Your task to perform on an android device: Search for dell xps on costco.com, select the first entry, and add it to the cart. Image 0: 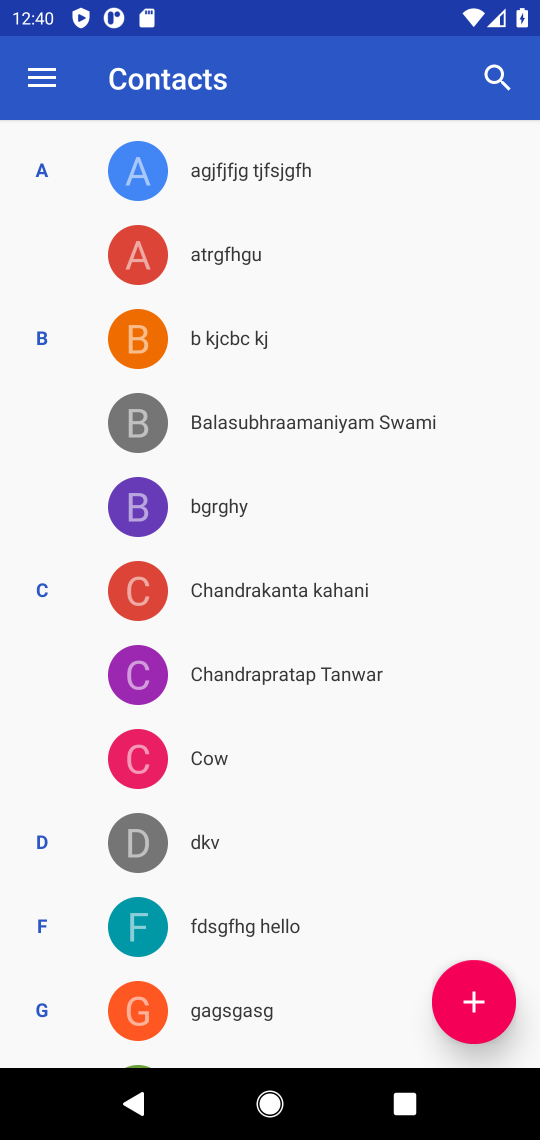
Step 0: press home button
Your task to perform on an android device: Search for dell xps on costco.com, select the first entry, and add it to the cart. Image 1: 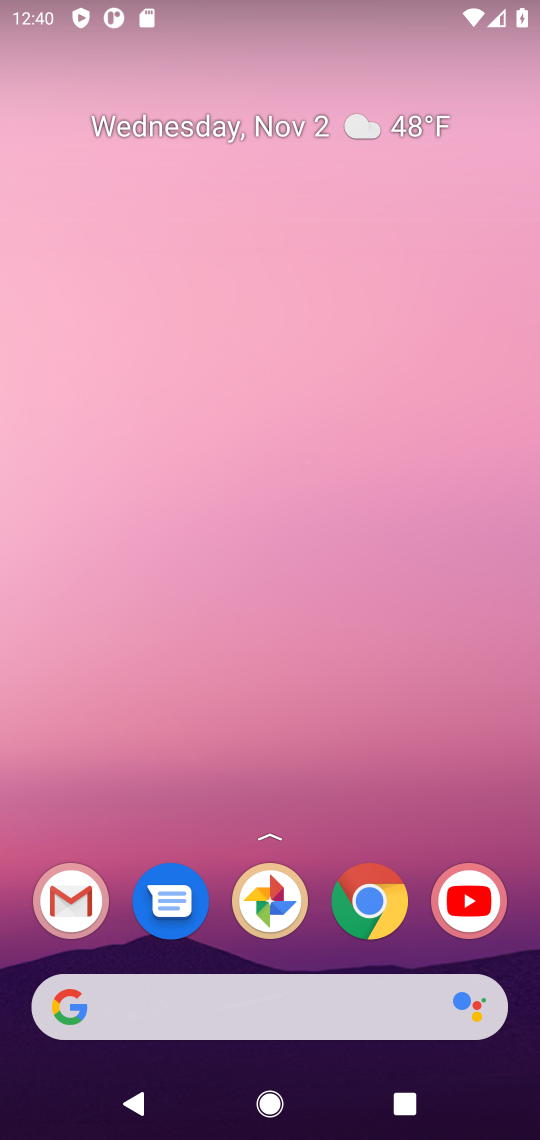
Step 1: drag from (329, 952) to (317, 88)
Your task to perform on an android device: Search for dell xps on costco.com, select the first entry, and add it to the cart. Image 2: 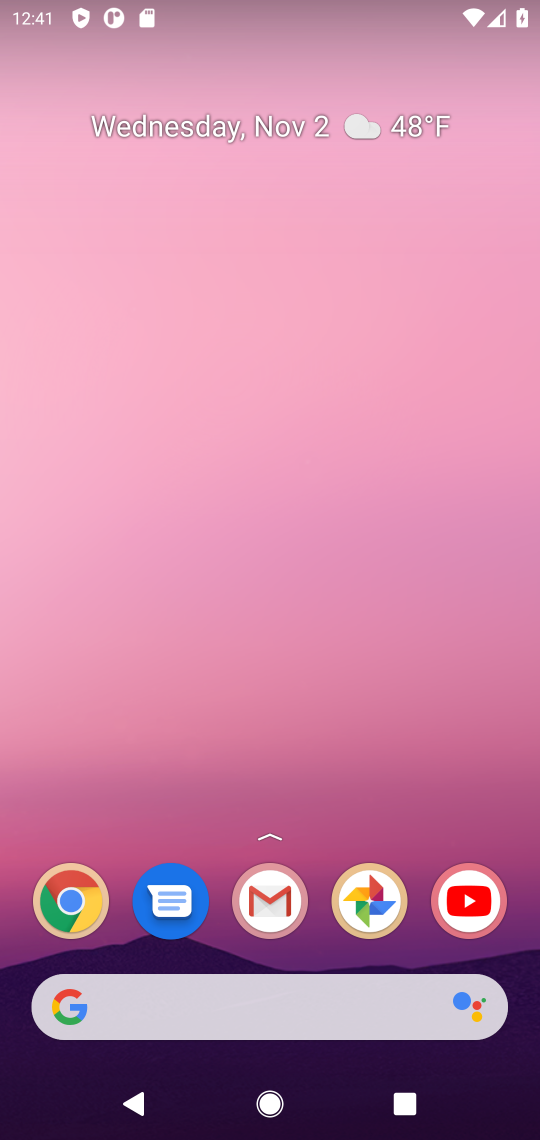
Step 2: drag from (309, 971) to (285, 330)
Your task to perform on an android device: Search for dell xps on costco.com, select the first entry, and add it to the cart. Image 3: 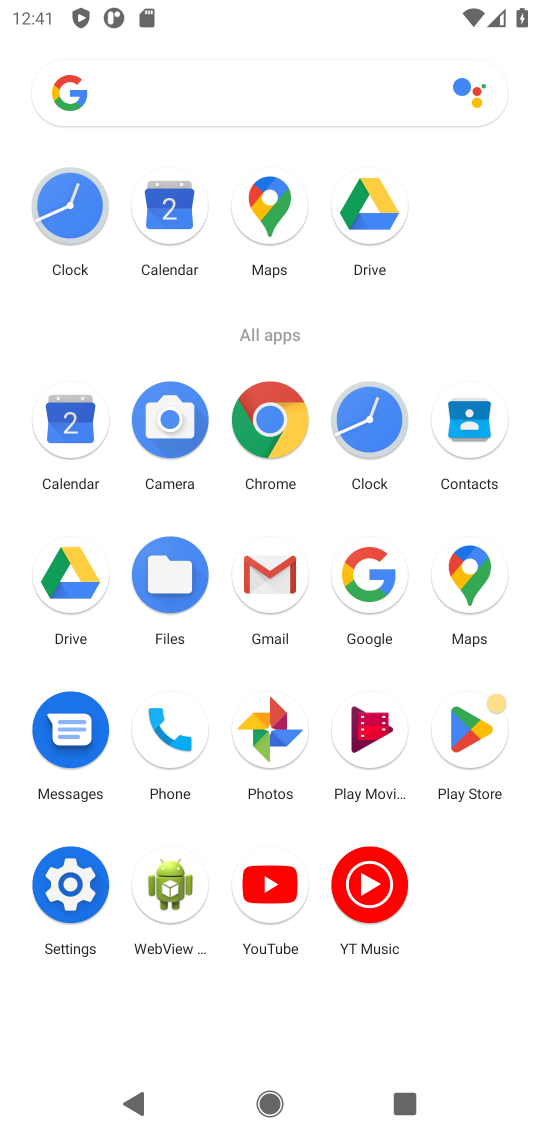
Step 3: click (276, 424)
Your task to perform on an android device: Search for dell xps on costco.com, select the first entry, and add it to the cart. Image 4: 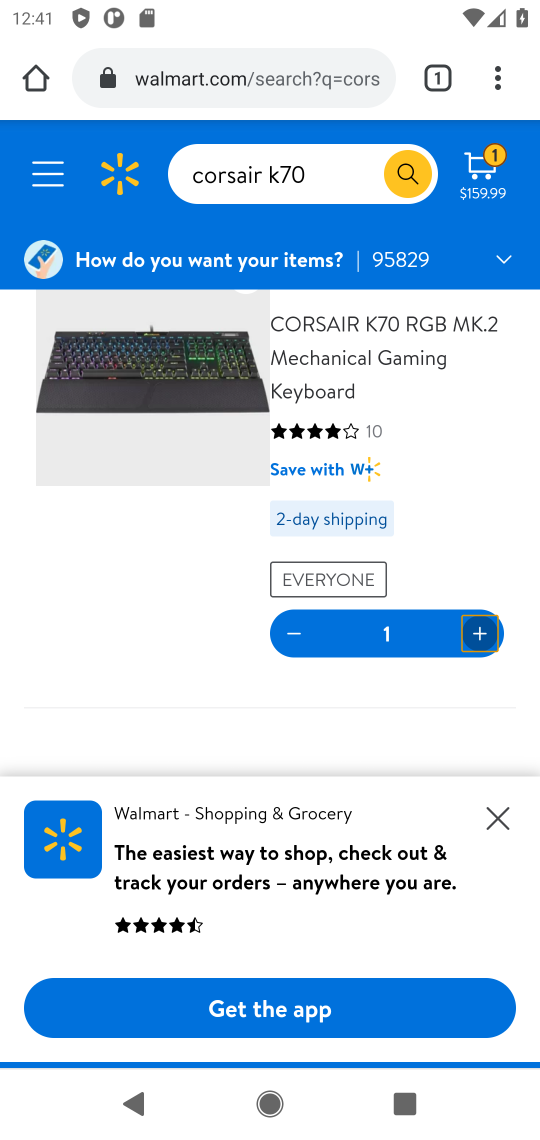
Step 4: click (303, 72)
Your task to perform on an android device: Search for dell xps on costco.com, select the first entry, and add it to the cart. Image 5: 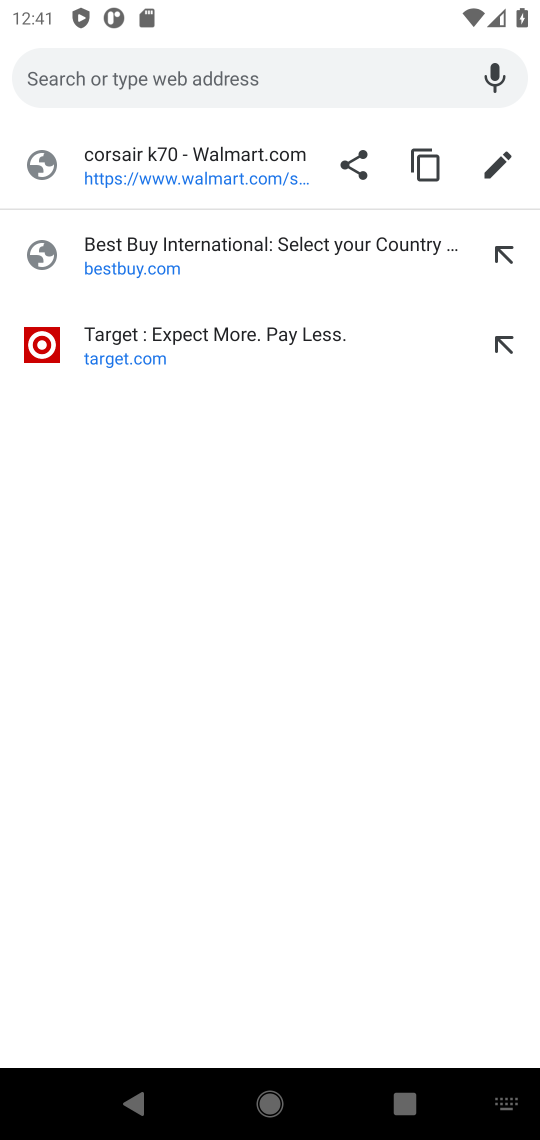
Step 5: type "costco.com"
Your task to perform on an android device: Search for dell xps on costco.com, select the first entry, and add it to the cart. Image 6: 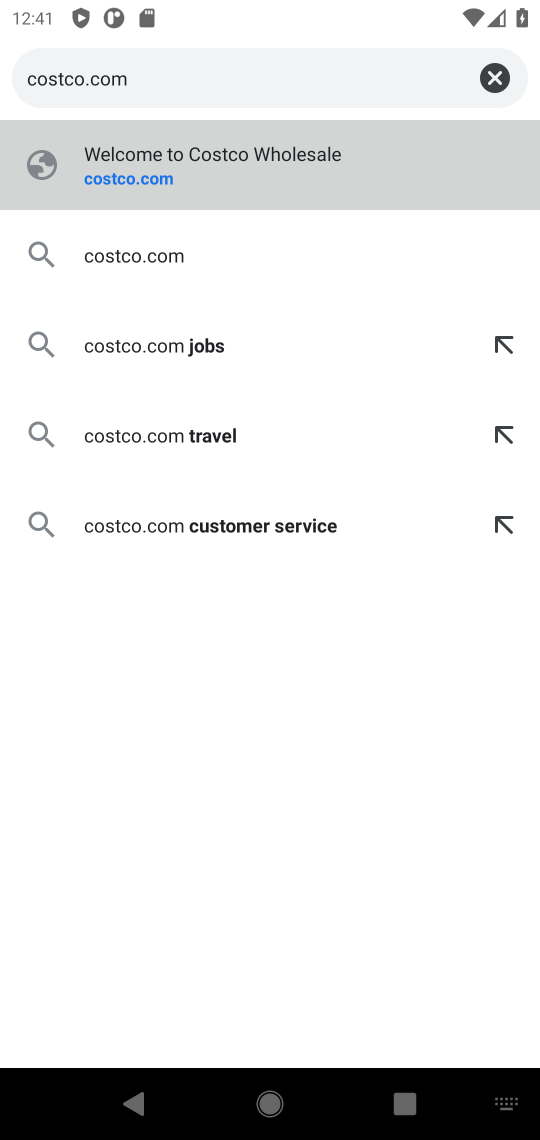
Step 6: press enter
Your task to perform on an android device: Search for dell xps on costco.com, select the first entry, and add it to the cart. Image 7: 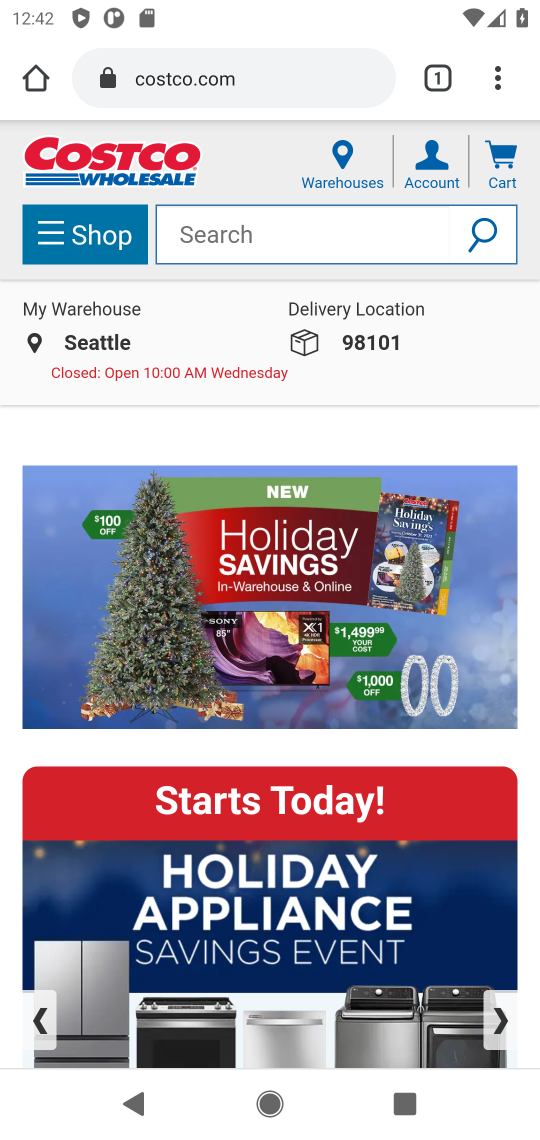
Step 7: click (309, 238)
Your task to perform on an android device: Search for dell xps on costco.com, select the first entry, and add it to the cart. Image 8: 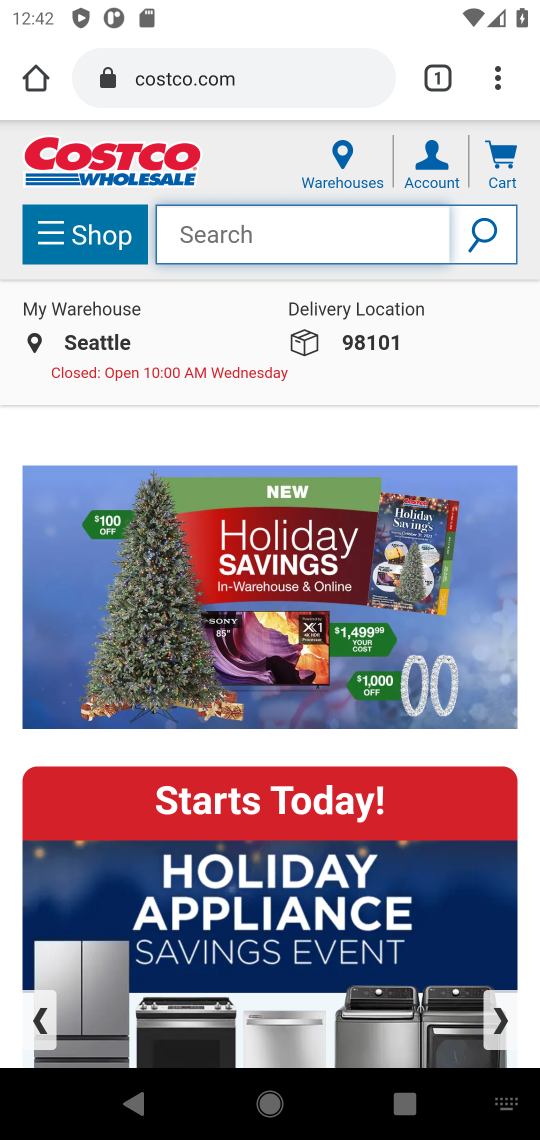
Step 8: type "dell xps"
Your task to perform on an android device: Search for dell xps on costco.com, select the first entry, and add it to the cart. Image 9: 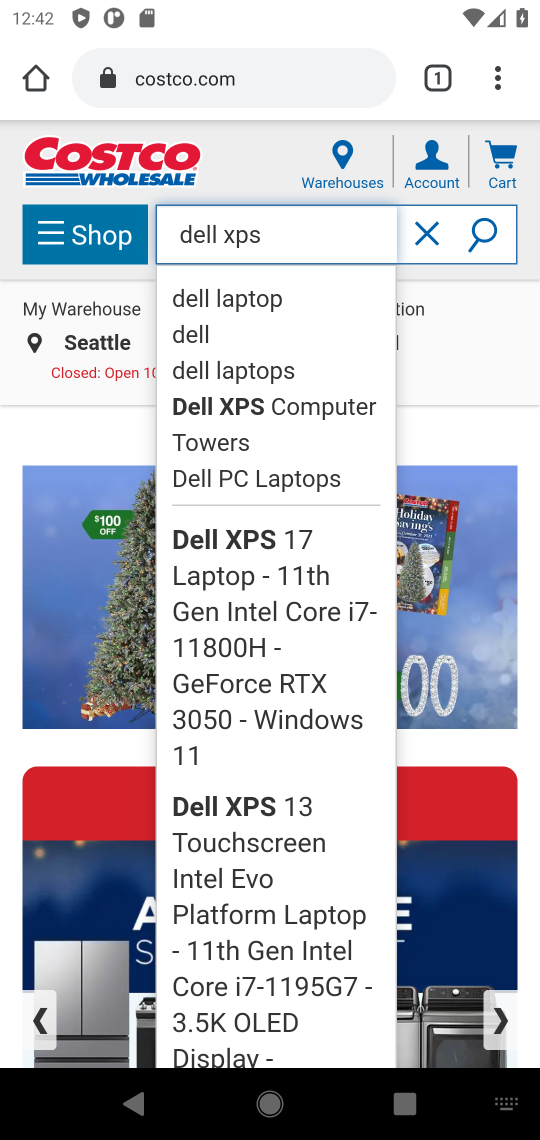
Step 9: press enter
Your task to perform on an android device: Search for dell xps on costco.com, select the first entry, and add it to the cart. Image 10: 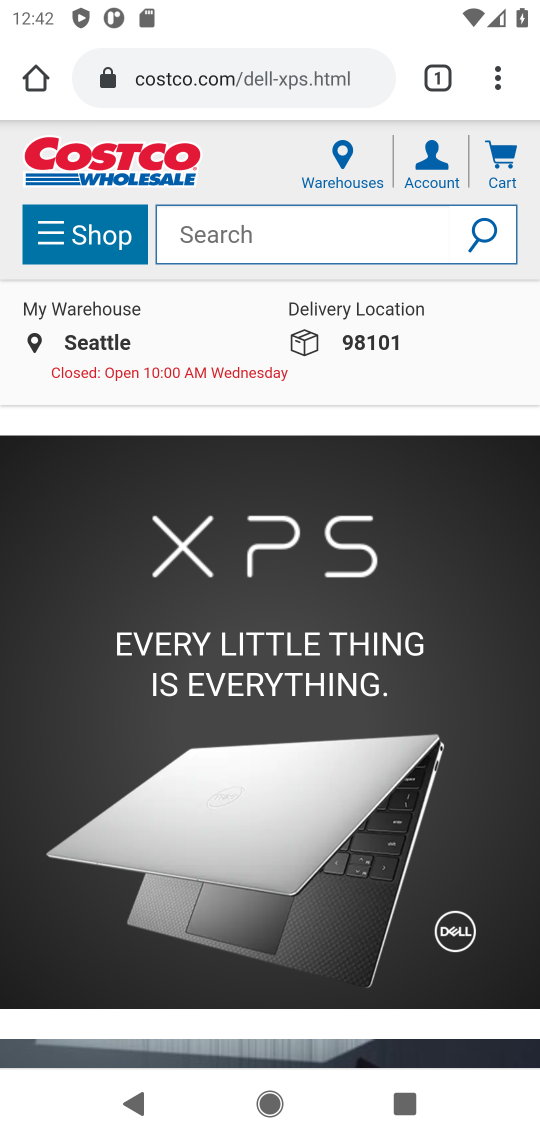
Step 10: drag from (437, 846) to (329, 246)
Your task to perform on an android device: Search for dell xps on costco.com, select the first entry, and add it to the cart. Image 11: 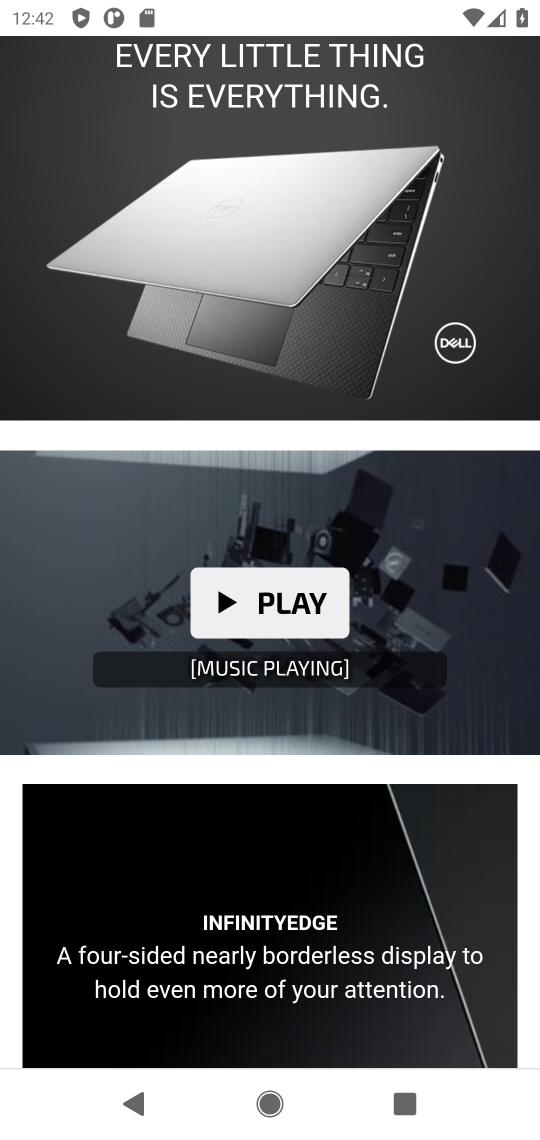
Step 11: drag from (404, 854) to (345, 379)
Your task to perform on an android device: Search for dell xps on costco.com, select the first entry, and add it to the cart. Image 12: 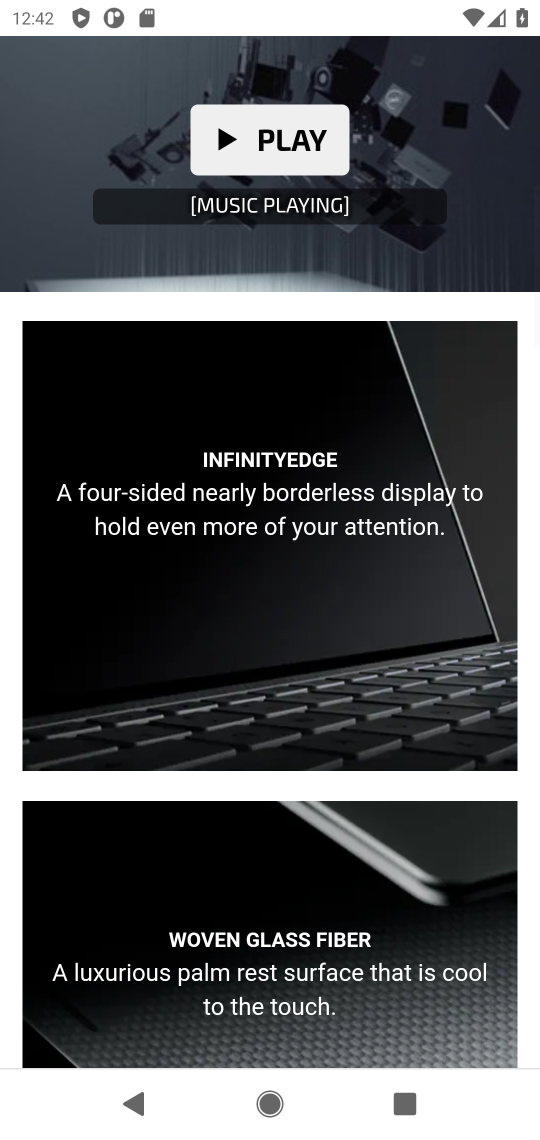
Step 12: drag from (374, 906) to (366, 418)
Your task to perform on an android device: Search for dell xps on costco.com, select the first entry, and add it to the cart. Image 13: 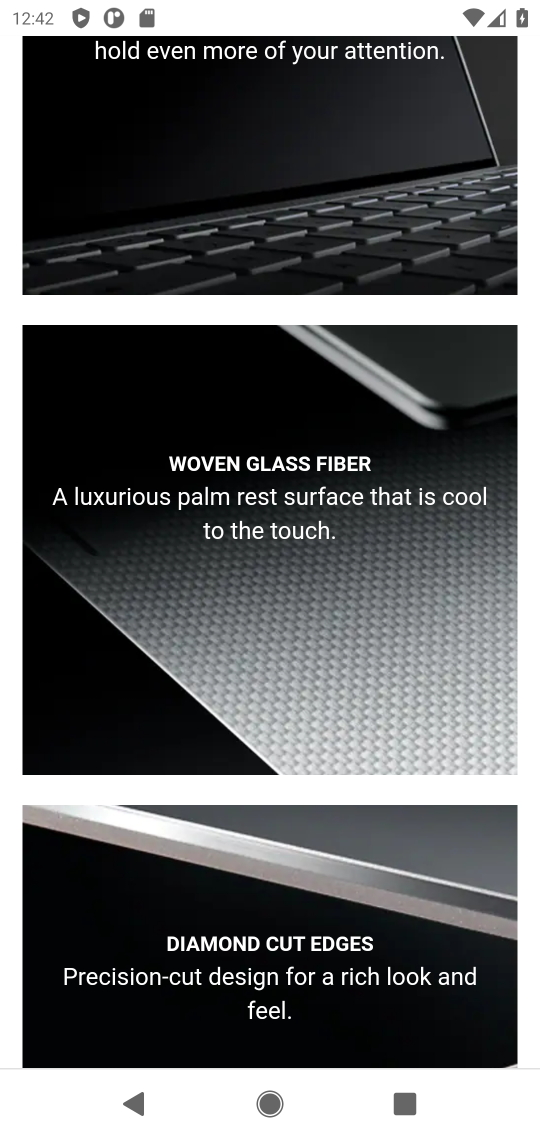
Step 13: drag from (392, 944) to (354, 500)
Your task to perform on an android device: Search for dell xps on costco.com, select the first entry, and add it to the cart. Image 14: 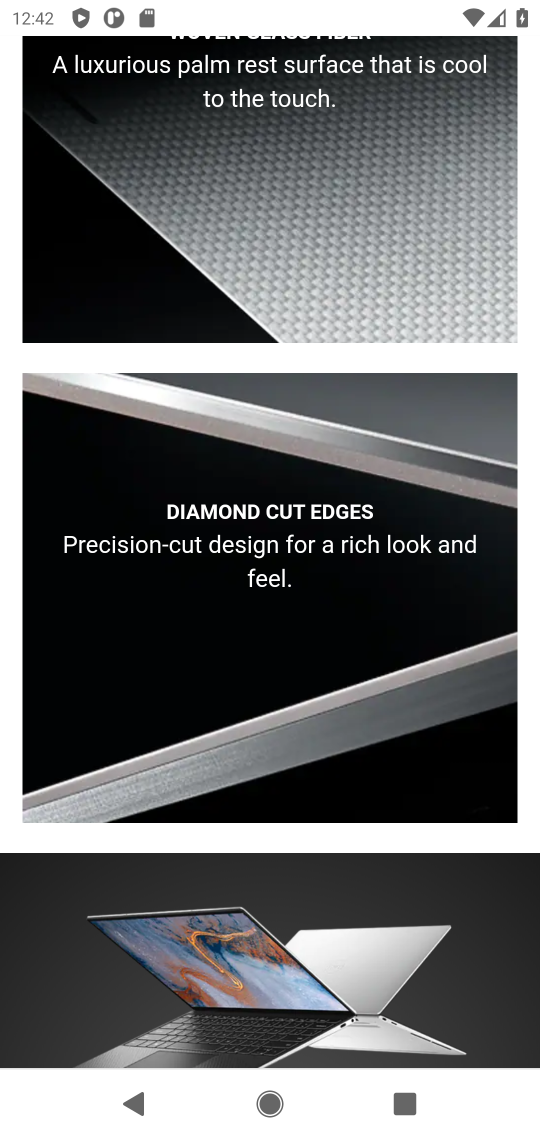
Step 14: drag from (373, 923) to (356, 591)
Your task to perform on an android device: Search for dell xps on costco.com, select the first entry, and add it to the cart. Image 15: 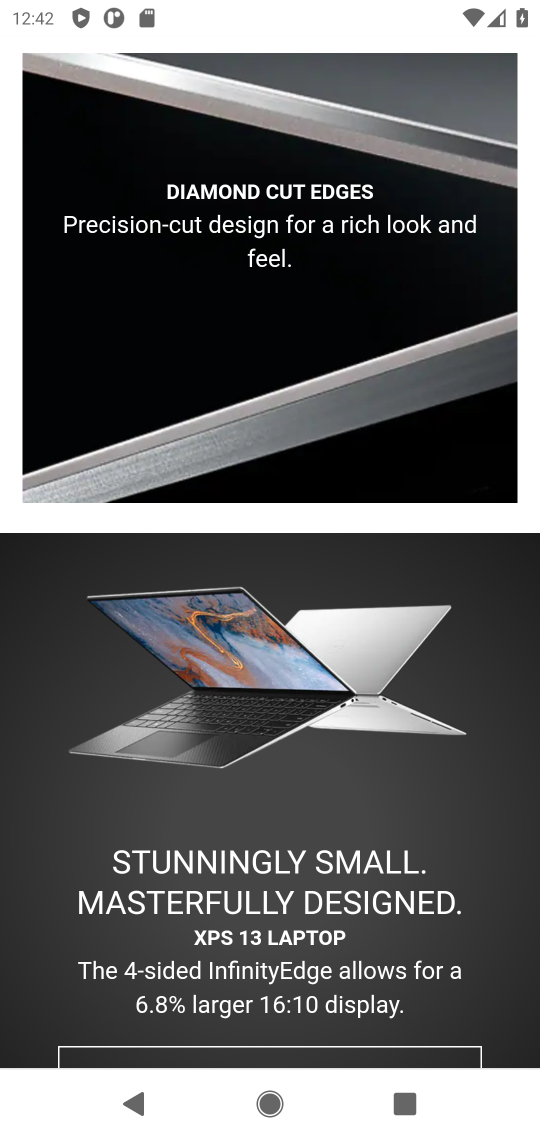
Step 15: drag from (388, 876) to (253, 308)
Your task to perform on an android device: Search for dell xps on costco.com, select the first entry, and add it to the cart. Image 16: 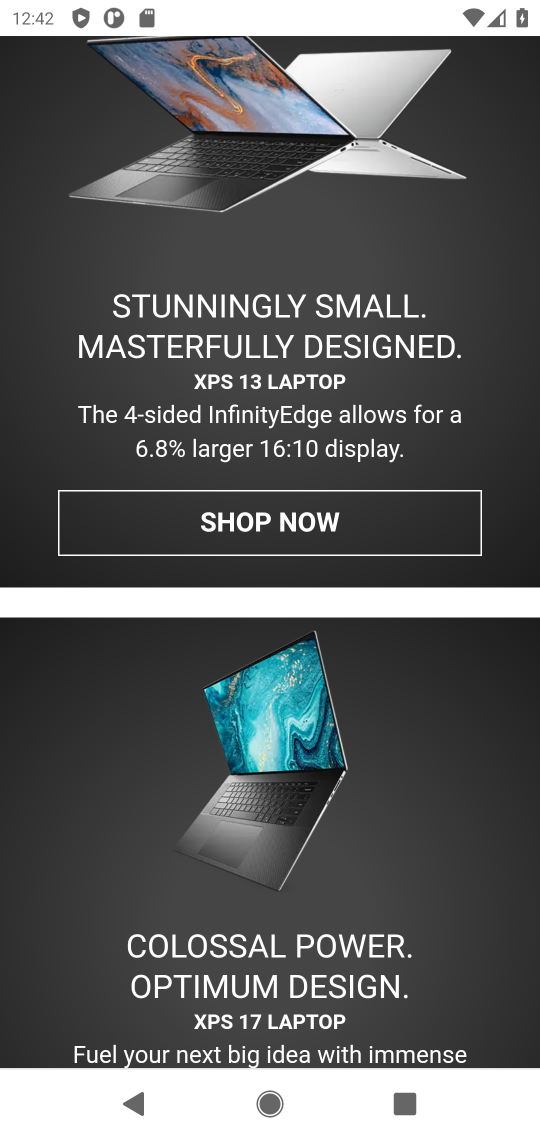
Step 16: drag from (327, 733) to (294, 239)
Your task to perform on an android device: Search for dell xps on costco.com, select the first entry, and add it to the cart. Image 17: 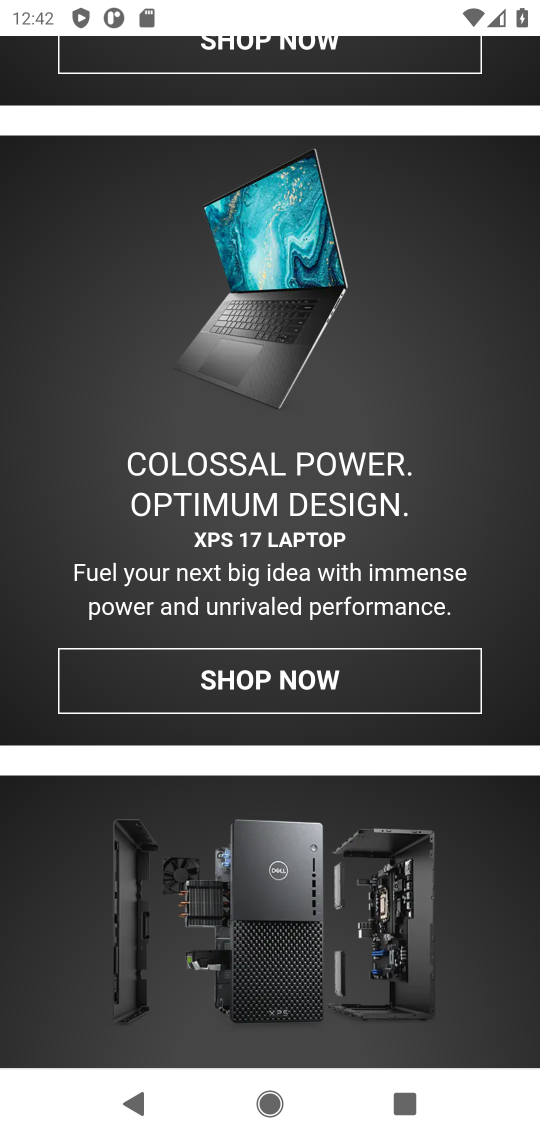
Step 17: drag from (294, 238) to (358, 1023)
Your task to perform on an android device: Search for dell xps on costco.com, select the first entry, and add it to the cart. Image 18: 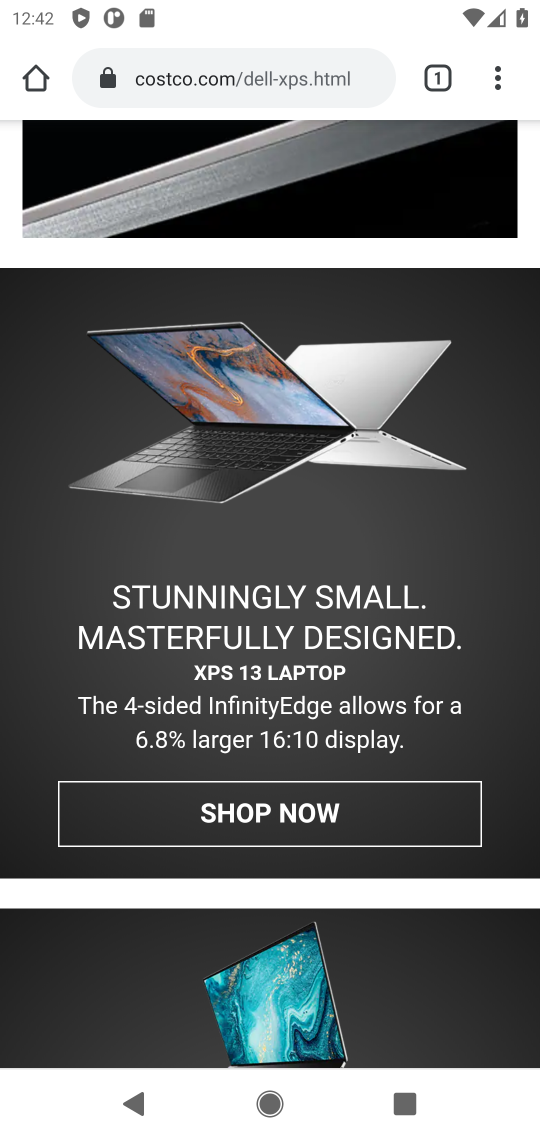
Step 18: drag from (331, 299) to (346, 986)
Your task to perform on an android device: Search for dell xps on costco.com, select the first entry, and add it to the cart. Image 19: 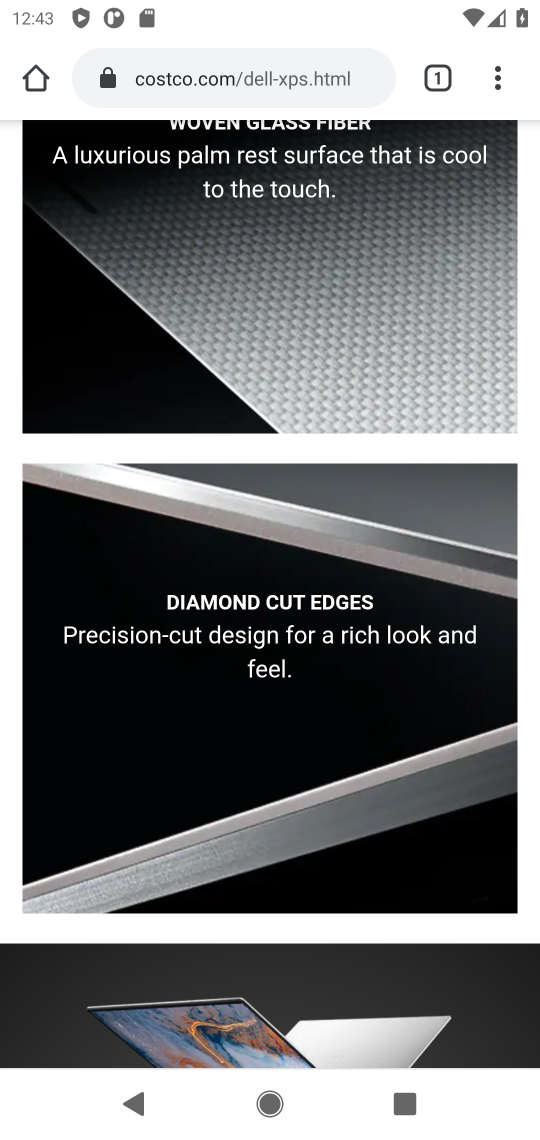
Step 19: drag from (328, 205) to (278, 796)
Your task to perform on an android device: Search for dell xps on costco.com, select the first entry, and add it to the cart. Image 20: 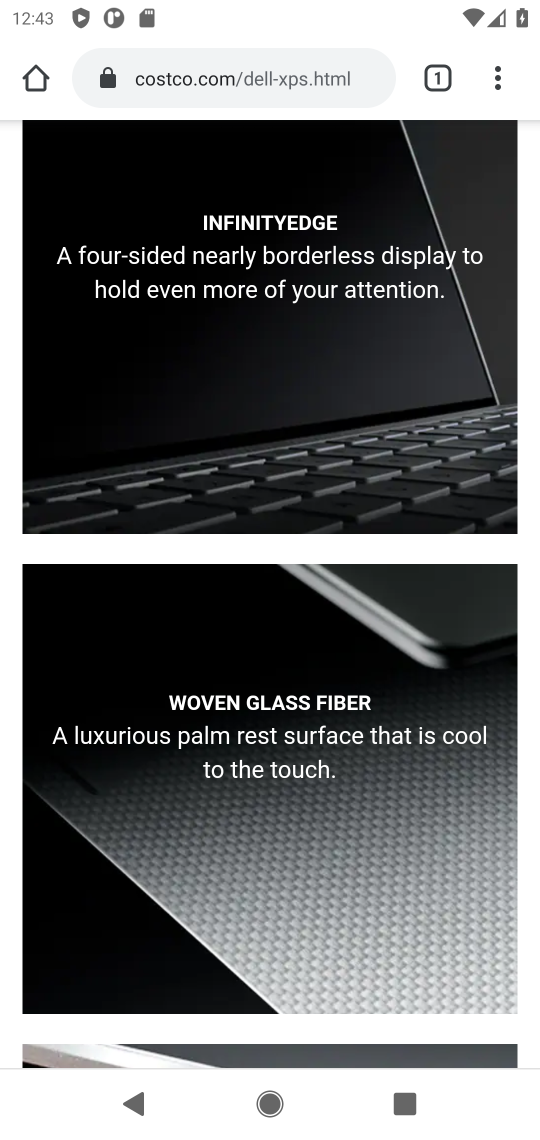
Step 20: drag from (301, 200) to (300, 955)
Your task to perform on an android device: Search for dell xps on costco.com, select the first entry, and add it to the cart. Image 21: 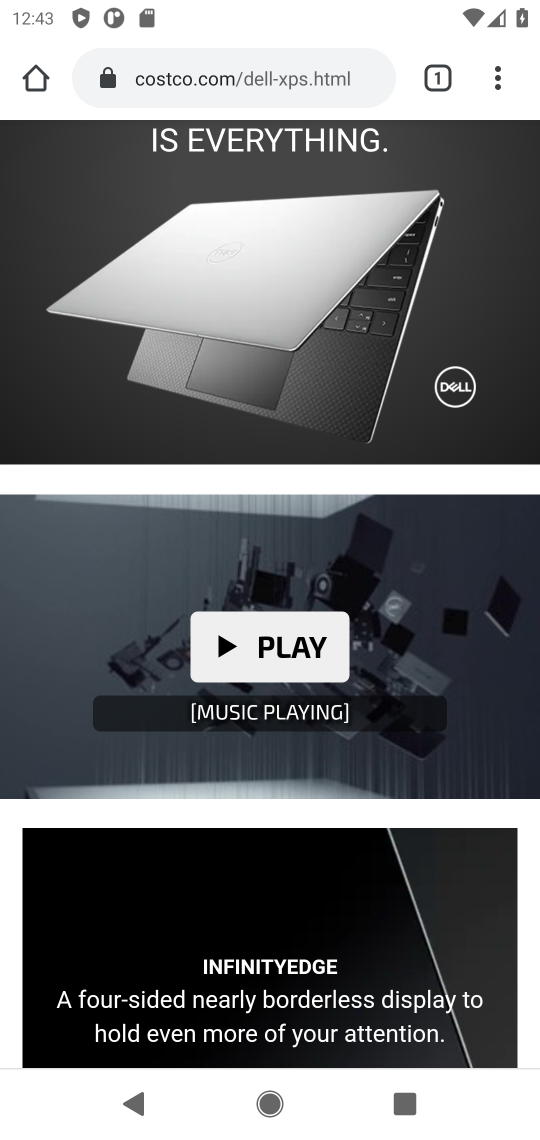
Step 21: drag from (321, 314) to (260, 967)
Your task to perform on an android device: Search for dell xps on costco.com, select the first entry, and add it to the cart. Image 22: 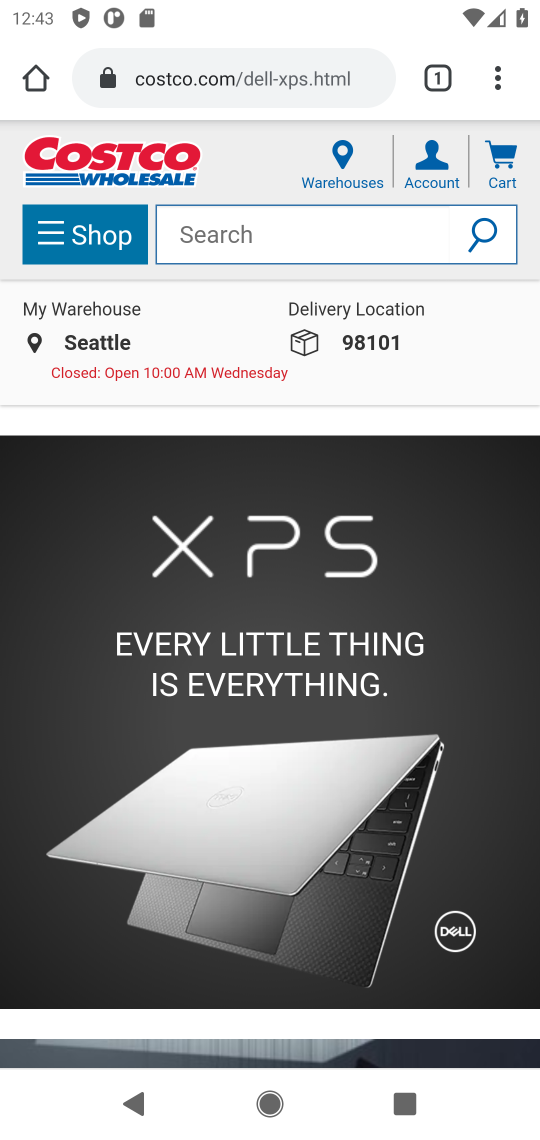
Step 22: click (339, 225)
Your task to perform on an android device: Search for dell xps on costco.com, select the first entry, and add it to the cart. Image 23: 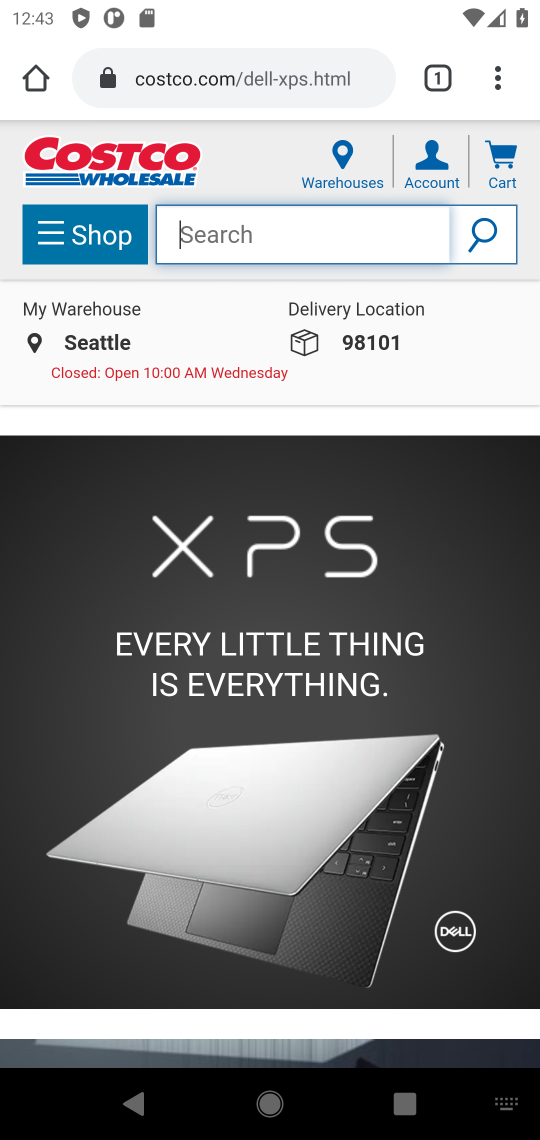
Step 23: type "dell xps"
Your task to perform on an android device: Search for dell xps on costco.com, select the first entry, and add it to the cart. Image 24: 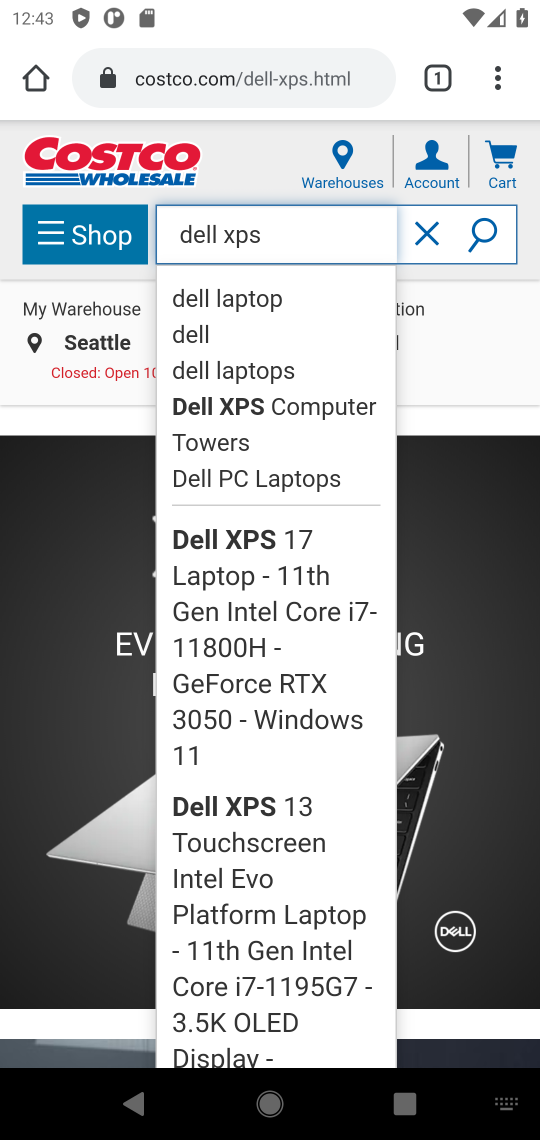
Step 24: press enter
Your task to perform on an android device: Search for dell xps on costco.com, select the first entry, and add it to the cart. Image 25: 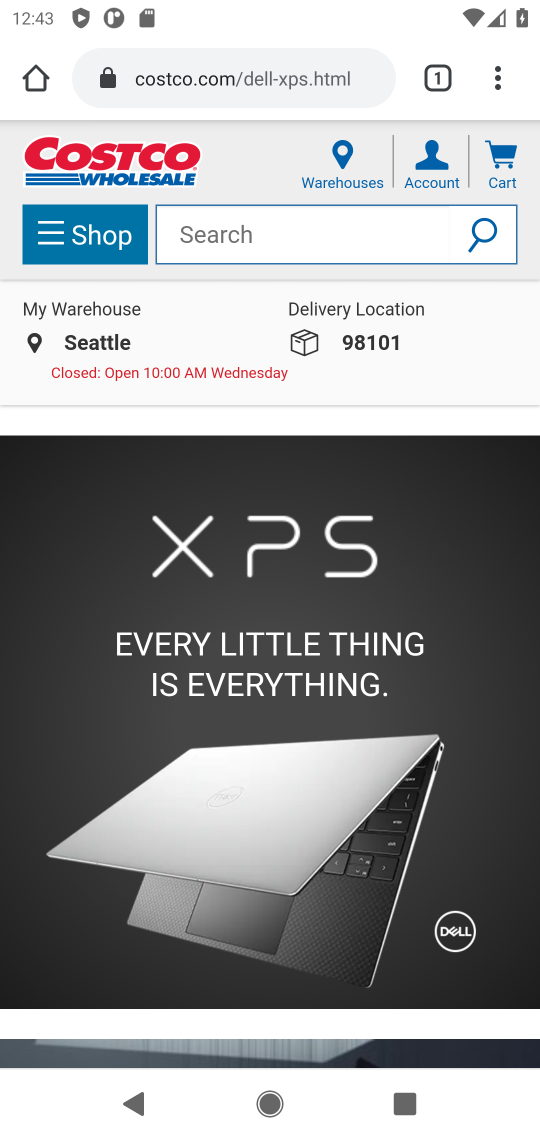
Step 25: drag from (346, 832) to (324, 477)
Your task to perform on an android device: Search for dell xps on costco.com, select the first entry, and add it to the cart. Image 26: 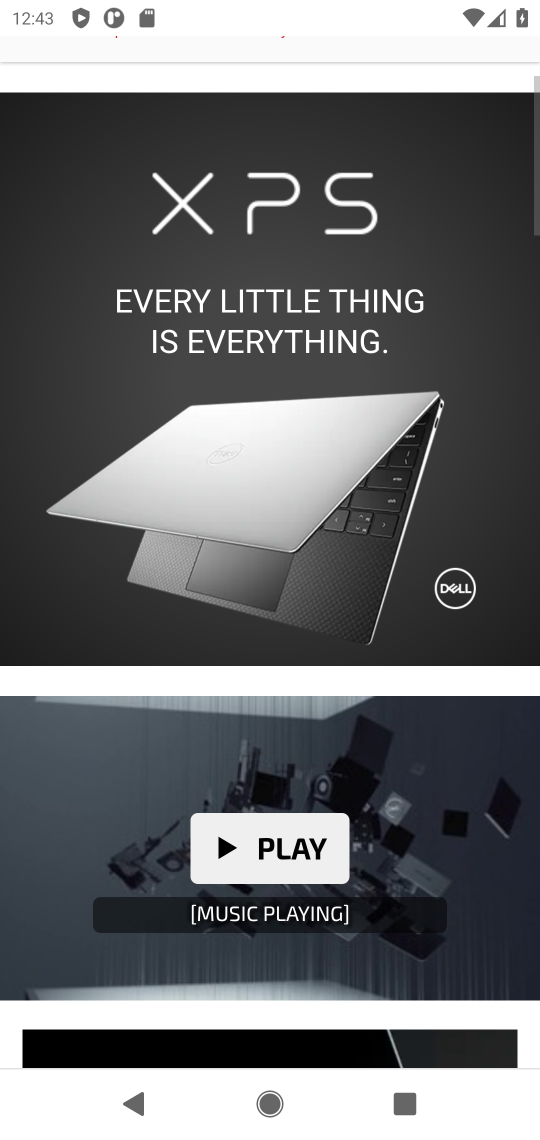
Step 26: drag from (329, 887) to (326, 383)
Your task to perform on an android device: Search for dell xps on costco.com, select the first entry, and add it to the cart. Image 27: 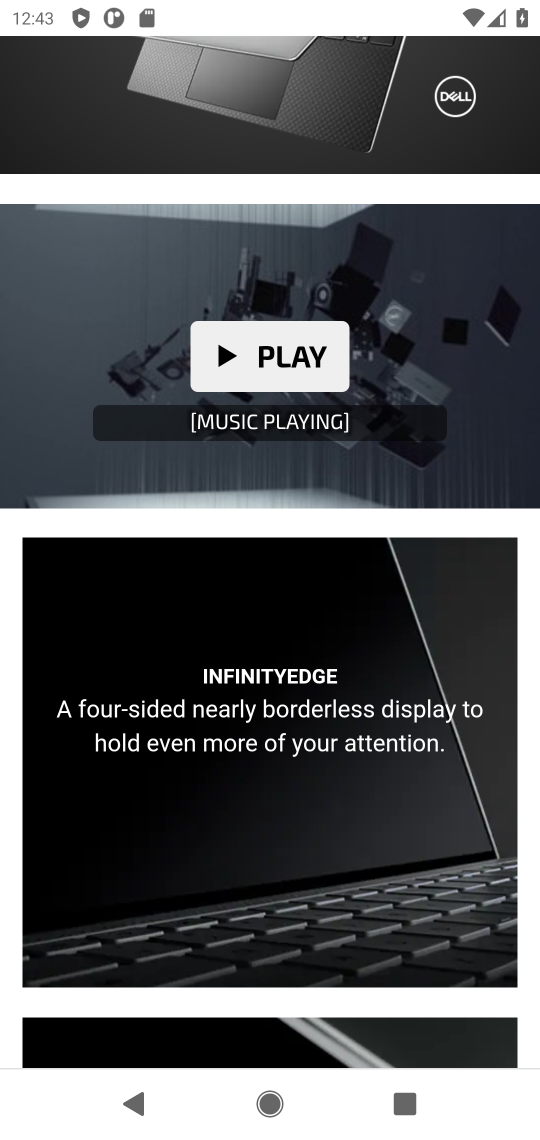
Step 27: drag from (376, 814) to (355, 425)
Your task to perform on an android device: Search for dell xps on costco.com, select the first entry, and add it to the cart. Image 28: 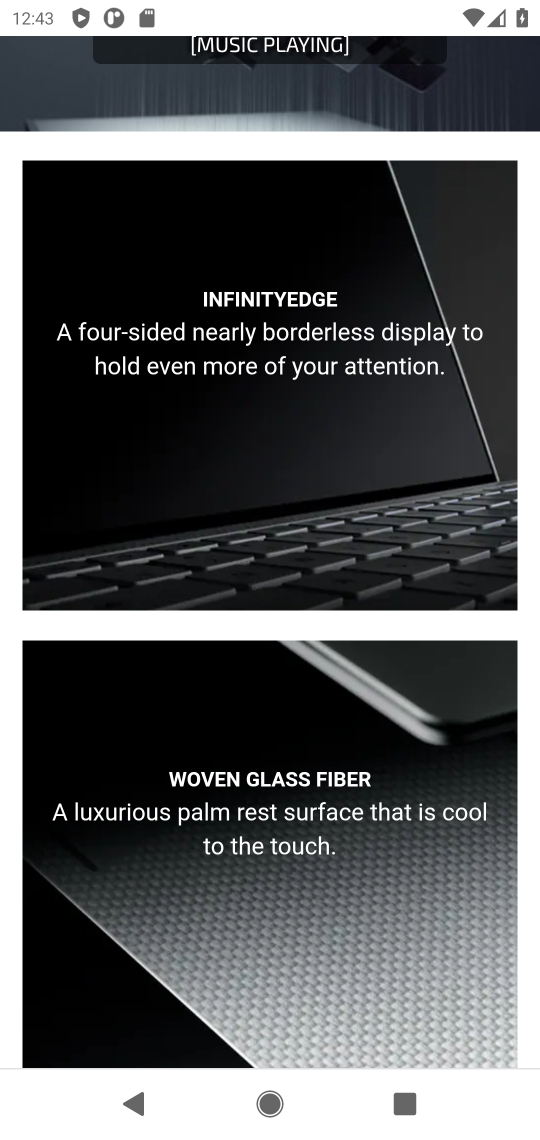
Step 28: drag from (308, 838) to (317, 452)
Your task to perform on an android device: Search for dell xps on costco.com, select the first entry, and add it to the cart. Image 29: 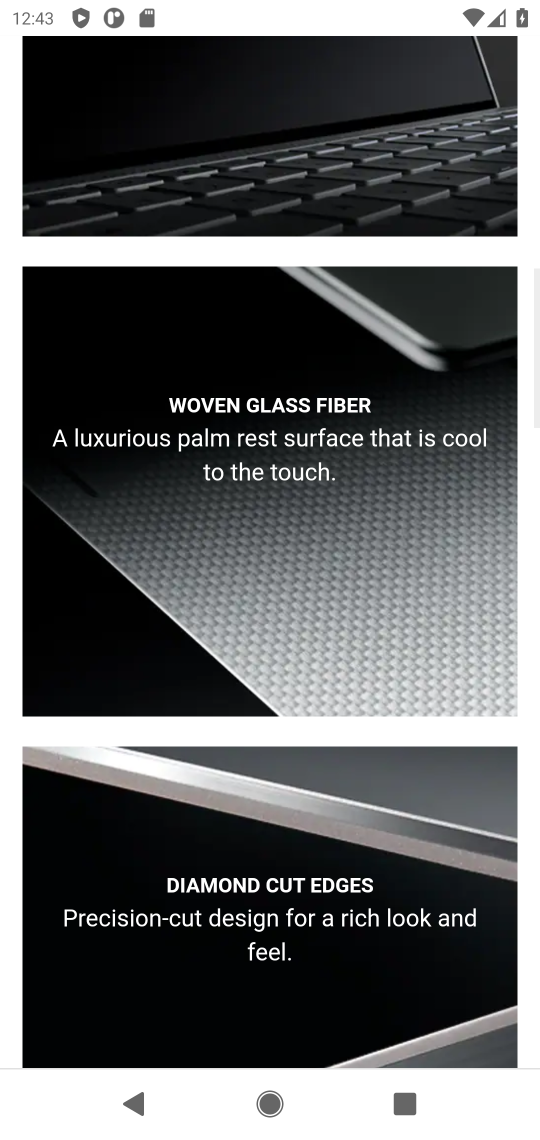
Step 29: drag from (289, 906) to (308, 523)
Your task to perform on an android device: Search for dell xps on costco.com, select the first entry, and add it to the cart. Image 30: 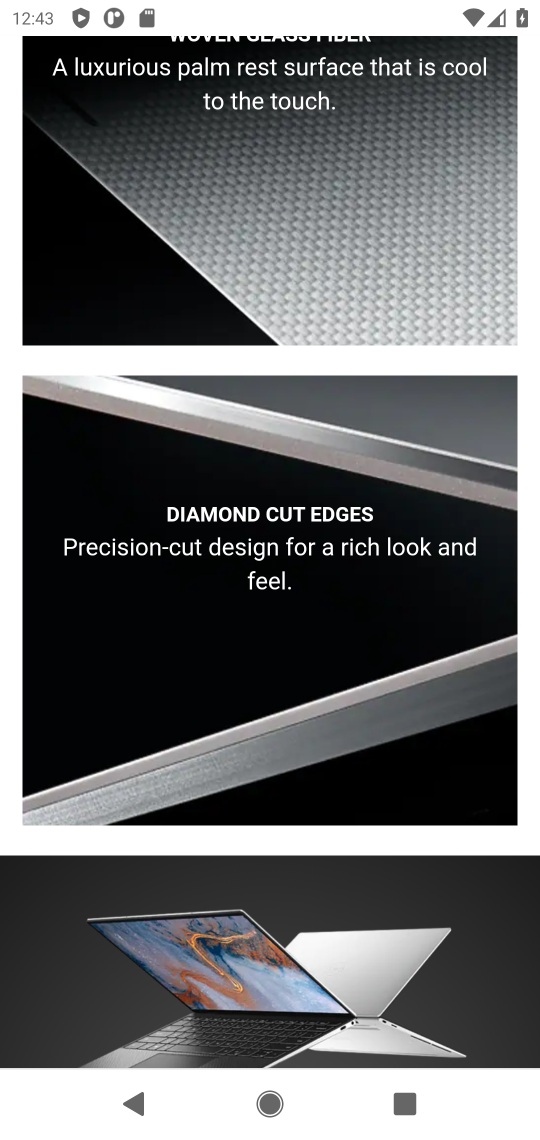
Step 30: drag from (278, 753) to (298, 459)
Your task to perform on an android device: Search for dell xps on costco.com, select the first entry, and add it to the cart. Image 31: 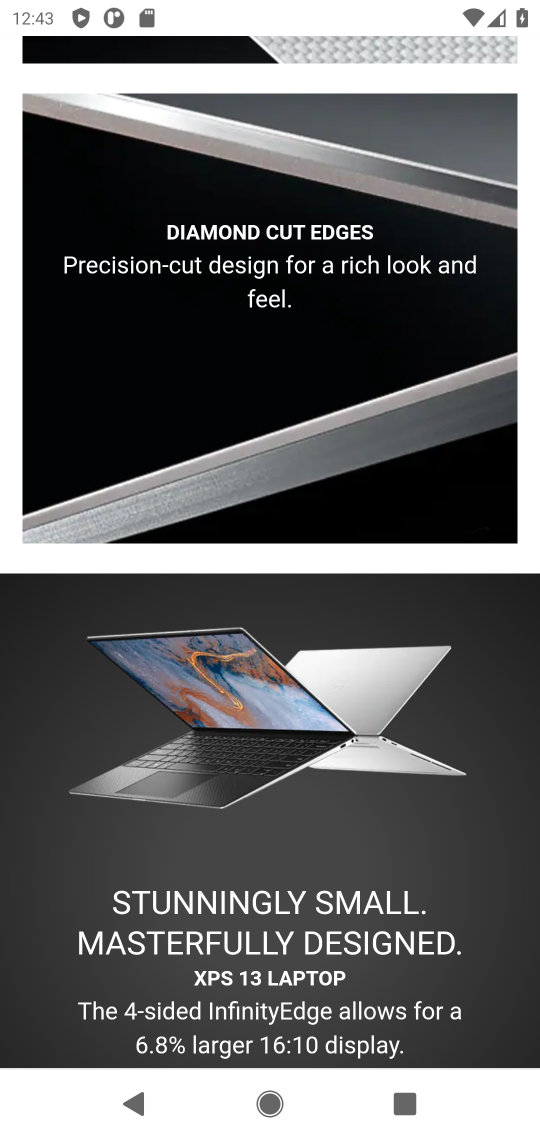
Step 31: drag from (377, 871) to (328, 205)
Your task to perform on an android device: Search for dell xps on costco.com, select the first entry, and add it to the cart. Image 32: 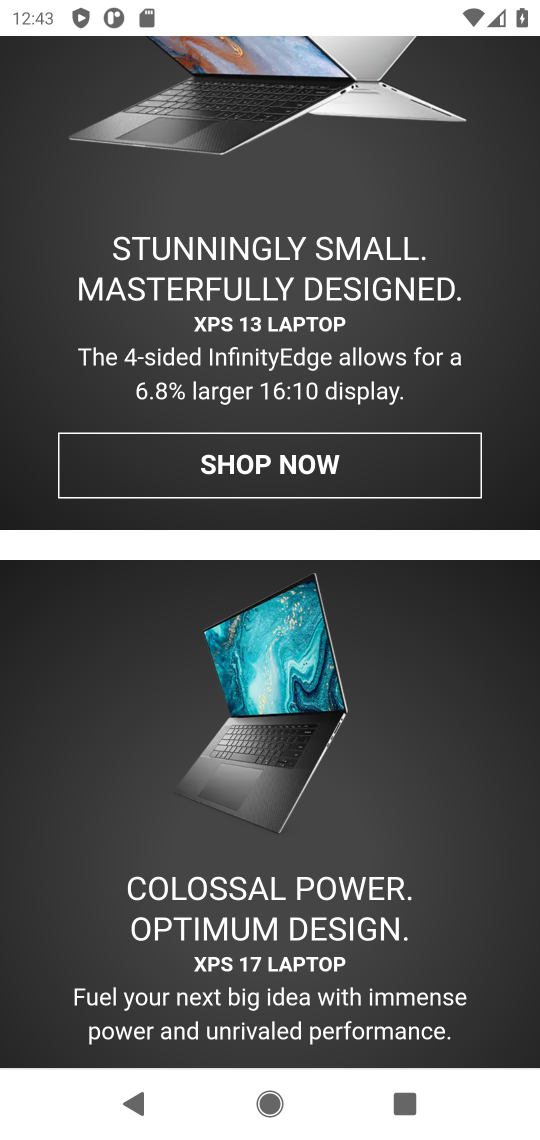
Step 32: drag from (327, 697) to (329, 167)
Your task to perform on an android device: Search for dell xps on costco.com, select the first entry, and add it to the cart. Image 33: 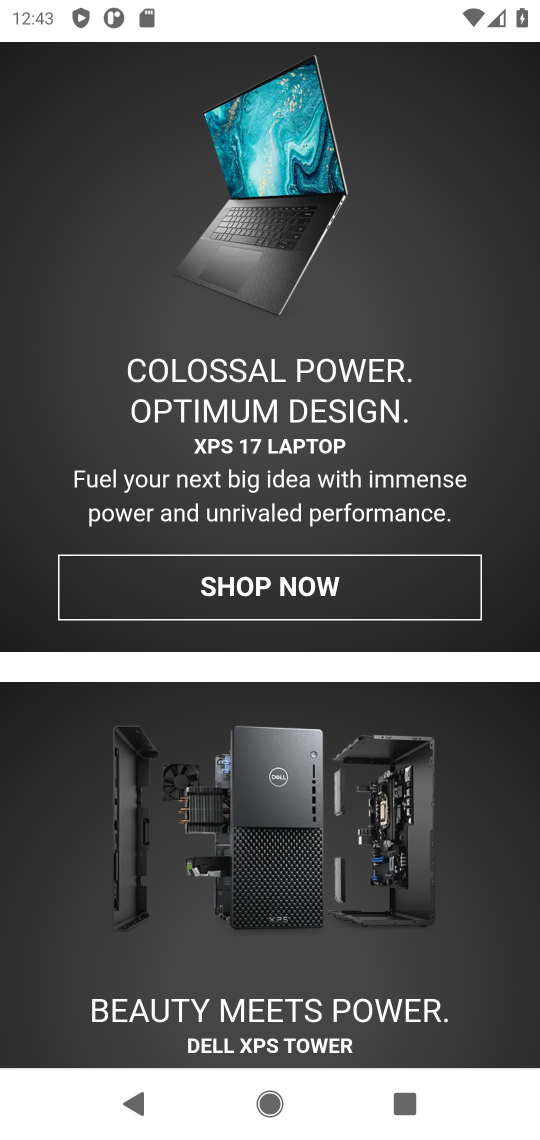
Step 33: drag from (330, 631) to (287, 187)
Your task to perform on an android device: Search for dell xps on costco.com, select the first entry, and add it to the cart. Image 34: 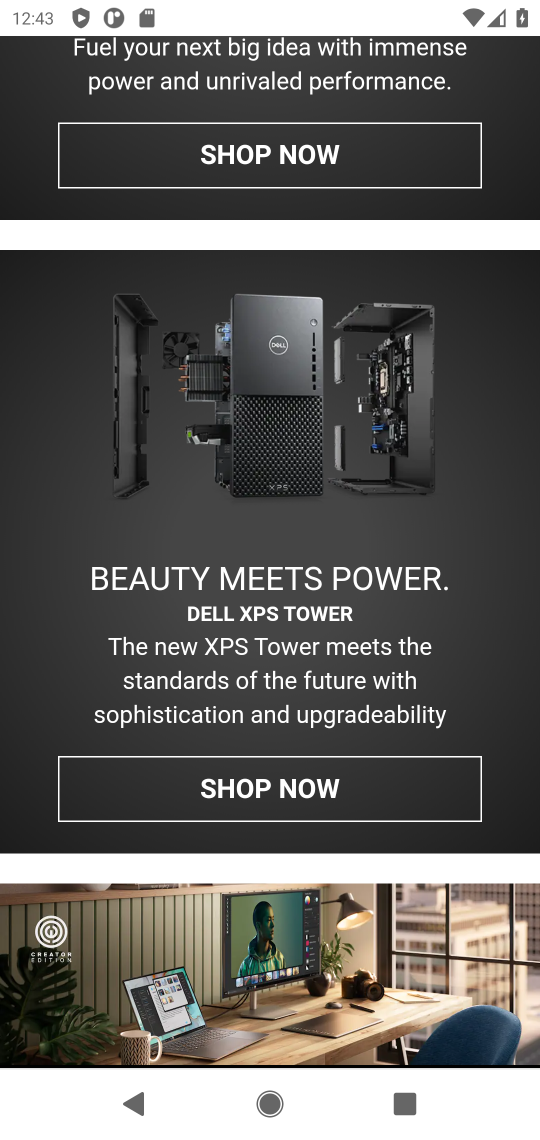
Step 34: drag from (327, 592) to (313, 317)
Your task to perform on an android device: Search for dell xps on costco.com, select the first entry, and add it to the cart. Image 35: 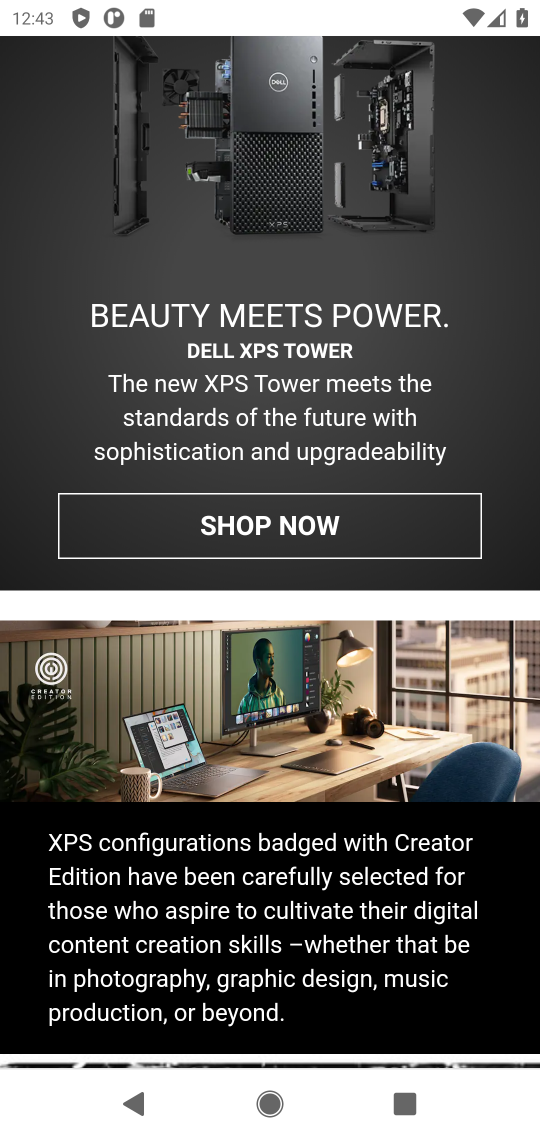
Step 35: drag from (348, 683) to (334, 360)
Your task to perform on an android device: Search for dell xps on costco.com, select the first entry, and add it to the cart. Image 36: 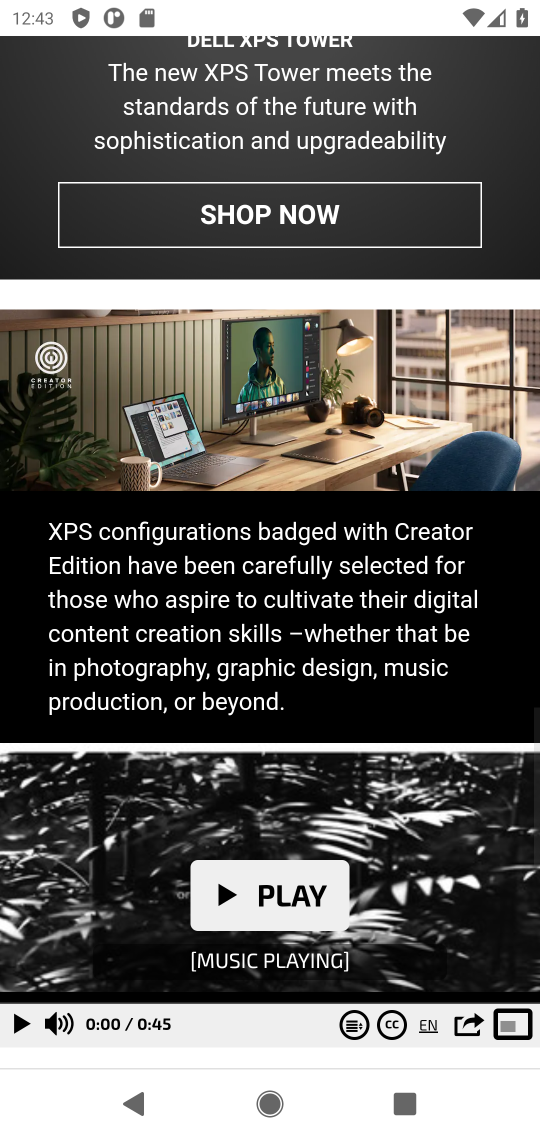
Step 36: drag from (363, 870) to (306, 450)
Your task to perform on an android device: Search for dell xps on costco.com, select the first entry, and add it to the cart. Image 37: 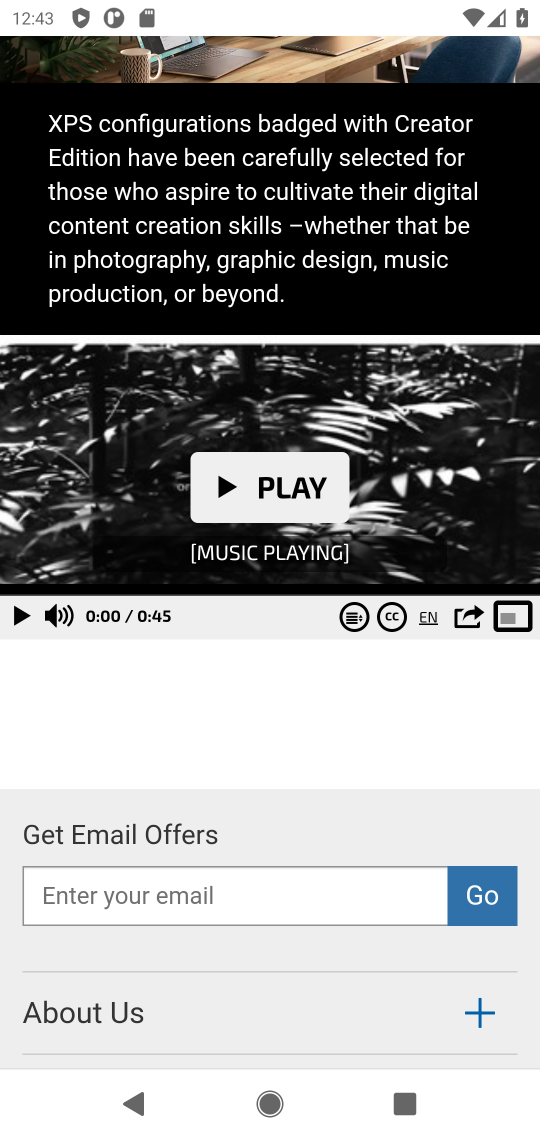
Step 37: drag from (411, 768) to (347, 1091)
Your task to perform on an android device: Search for dell xps on costco.com, select the first entry, and add it to the cart. Image 38: 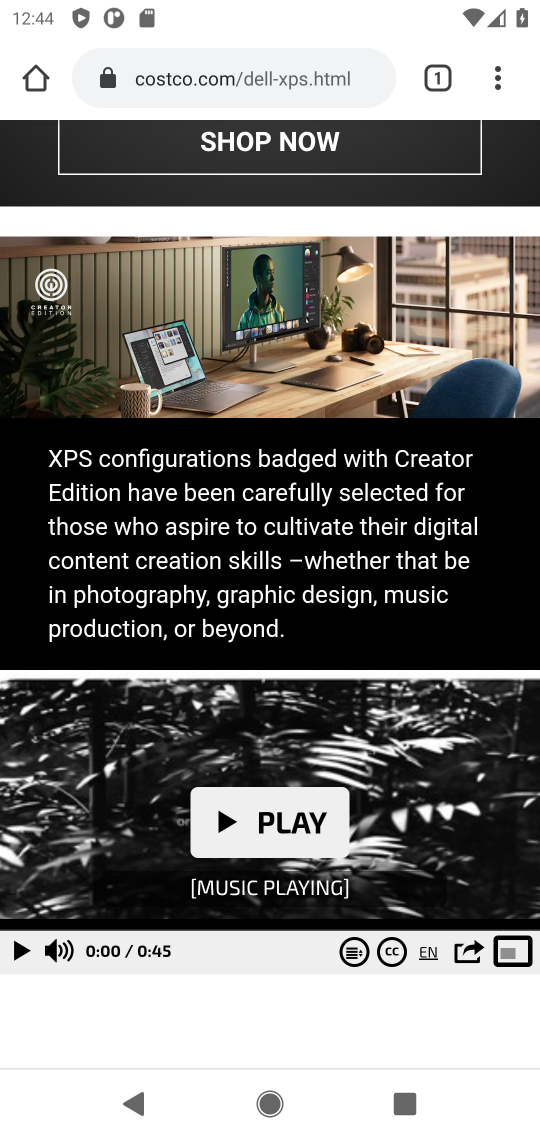
Step 38: drag from (352, 382) to (293, 885)
Your task to perform on an android device: Search for dell xps on costco.com, select the first entry, and add it to the cart. Image 39: 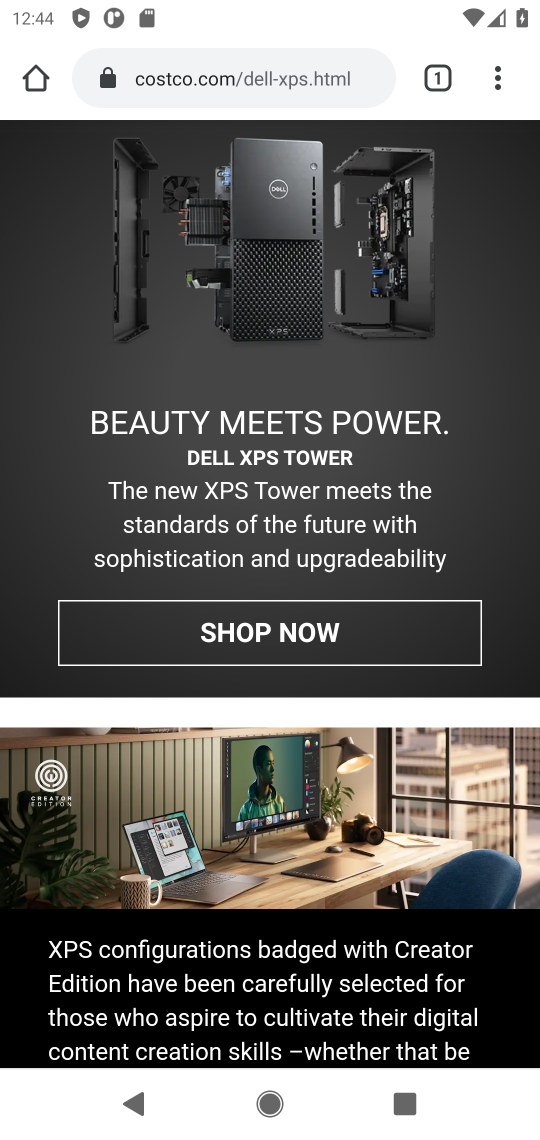
Step 39: click (283, 641)
Your task to perform on an android device: Search for dell xps on costco.com, select the first entry, and add it to the cart. Image 40: 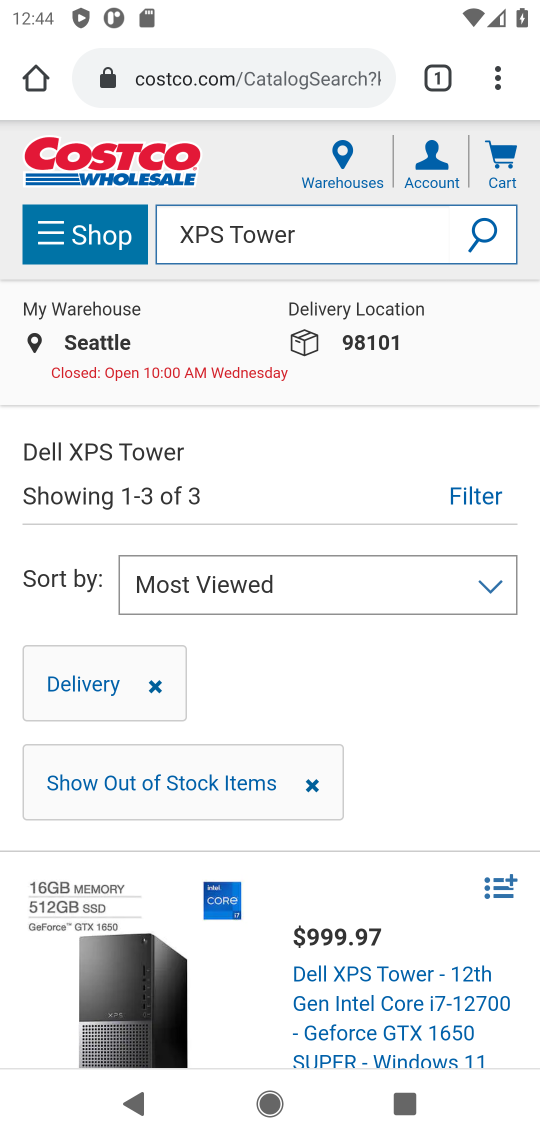
Step 40: press back button
Your task to perform on an android device: Search for dell xps on costco.com, select the first entry, and add it to the cart. Image 41: 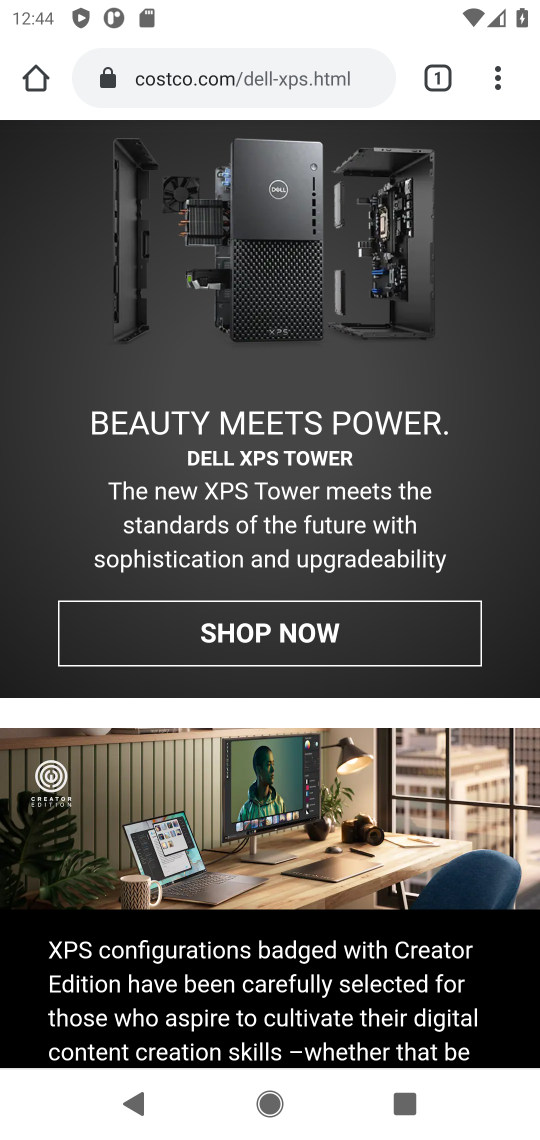
Step 41: drag from (348, 296) to (460, 980)
Your task to perform on an android device: Search for dell xps on costco.com, select the first entry, and add it to the cart. Image 42: 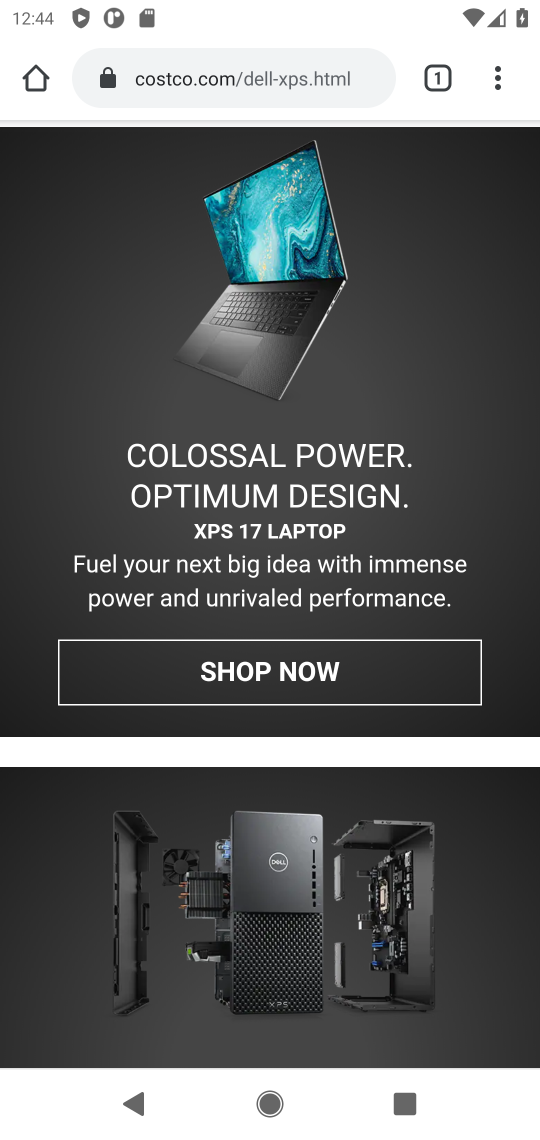
Step 42: drag from (346, 246) to (384, 683)
Your task to perform on an android device: Search for dell xps on costco.com, select the first entry, and add it to the cart. Image 43: 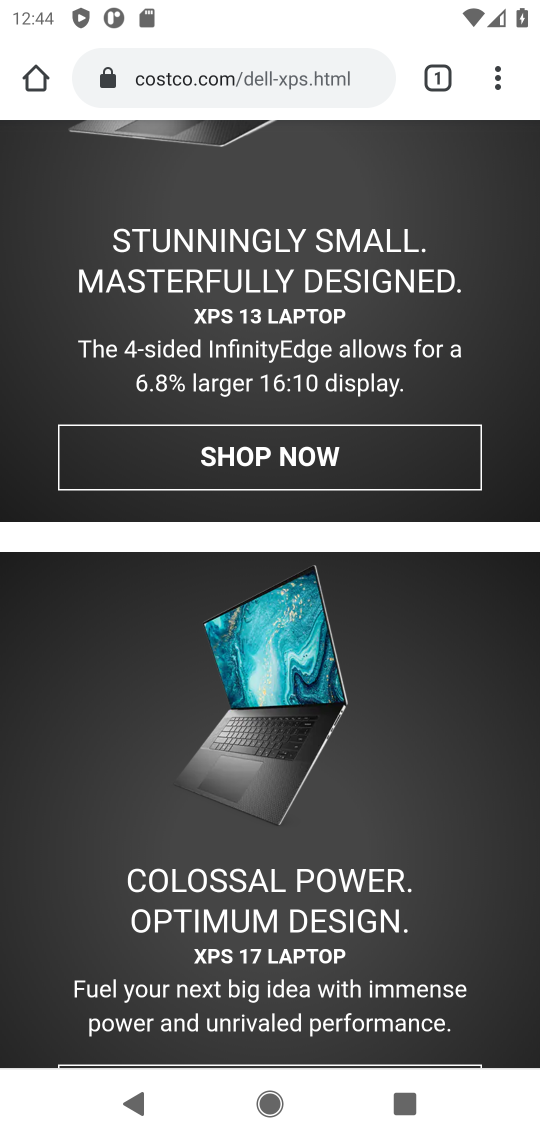
Step 43: drag from (299, 213) to (433, 784)
Your task to perform on an android device: Search for dell xps on costco.com, select the first entry, and add it to the cart. Image 44: 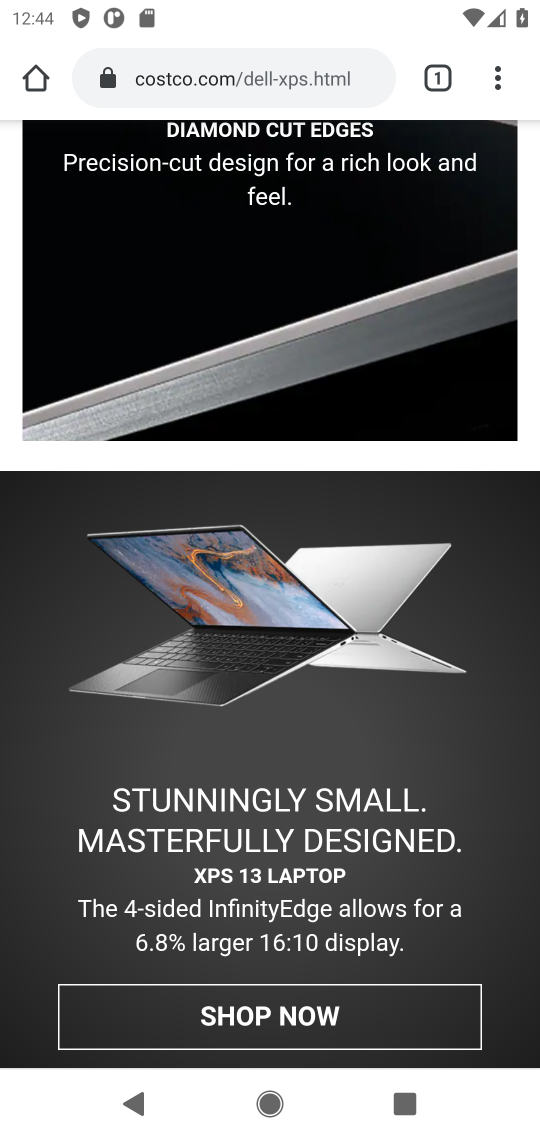
Step 44: drag from (326, 232) to (324, 855)
Your task to perform on an android device: Search for dell xps on costco.com, select the first entry, and add it to the cart. Image 45: 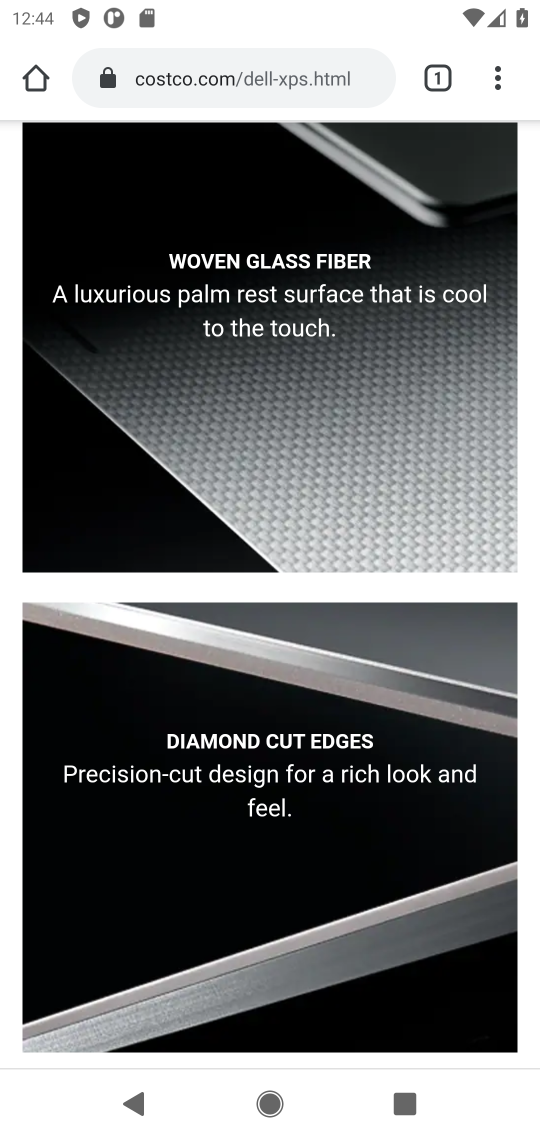
Step 45: drag from (330, 198) to (404, 789)
Your task to perform on an android device: Search for dell xps on costco.com, select the first entry, and add it to the cart. Image 46: 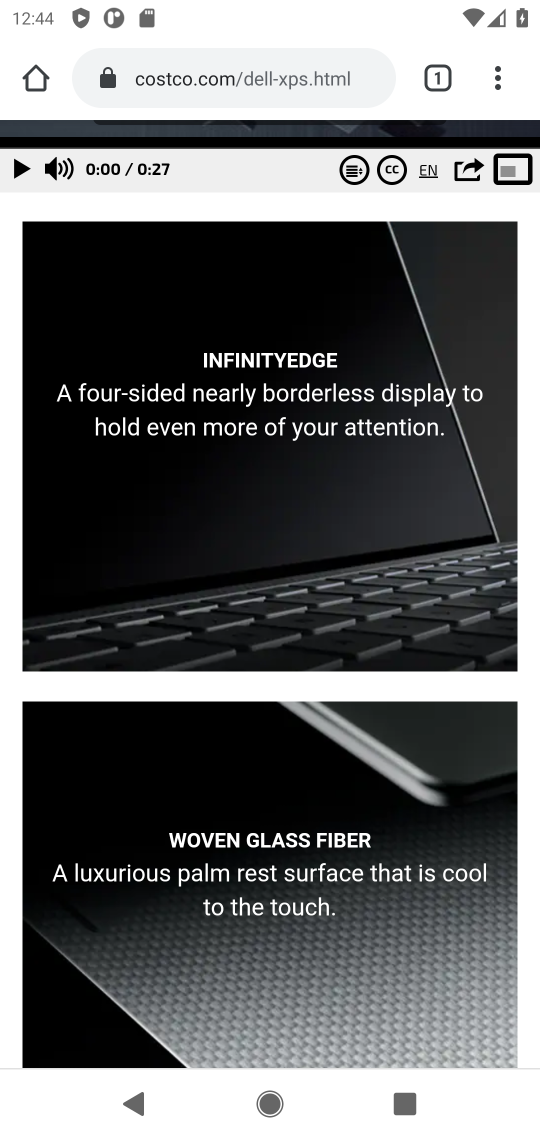
Step 46: drag from (365, 260) to (371, 716)
Your task to perform on an android device: Search for dell xps on costco.com, select the first entry, and add it to the cart. Image 47: 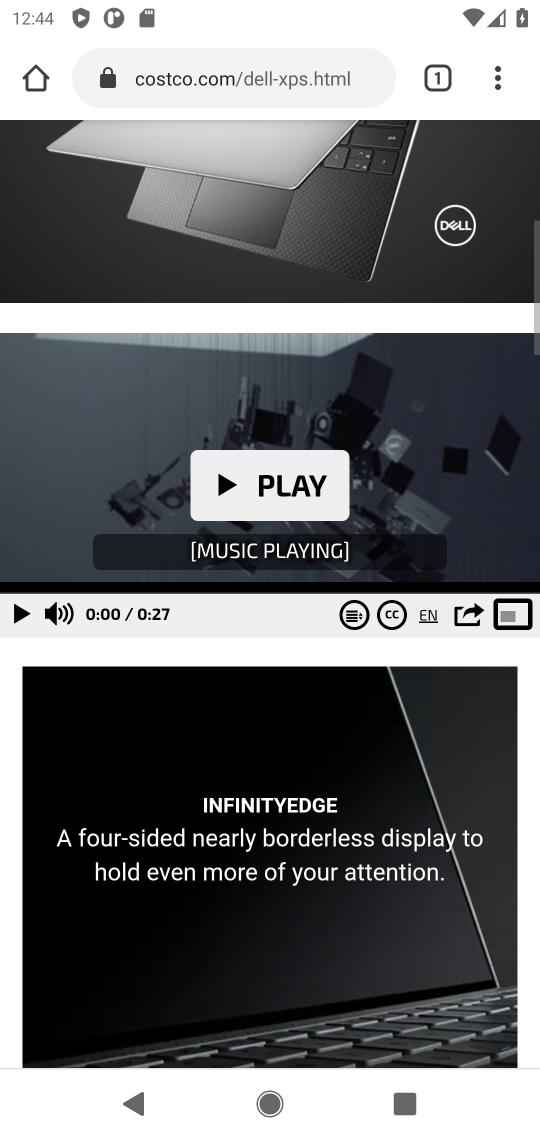
Step 47: drag from (366, 244) to (404, 757)
Your task to perform on an android device: Search for dell xps on costco.com, select the first entry, and add it to the cart. Image 48: 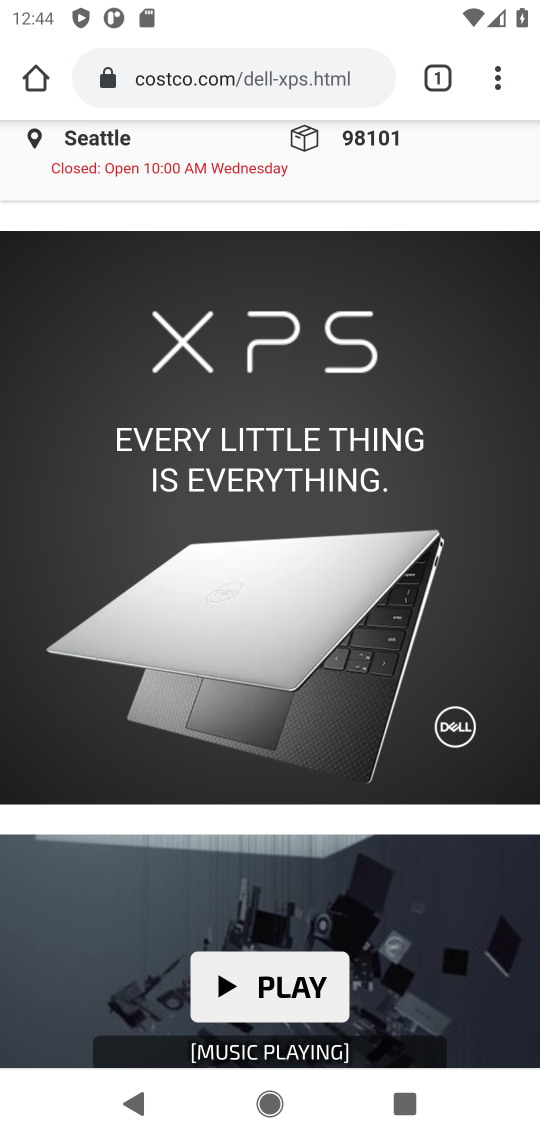
Step 48: click (349, 438)
Your task to perform on an android device: Search for dell xps on costco.com, select the first entry, and add it to the cart. Image 49: 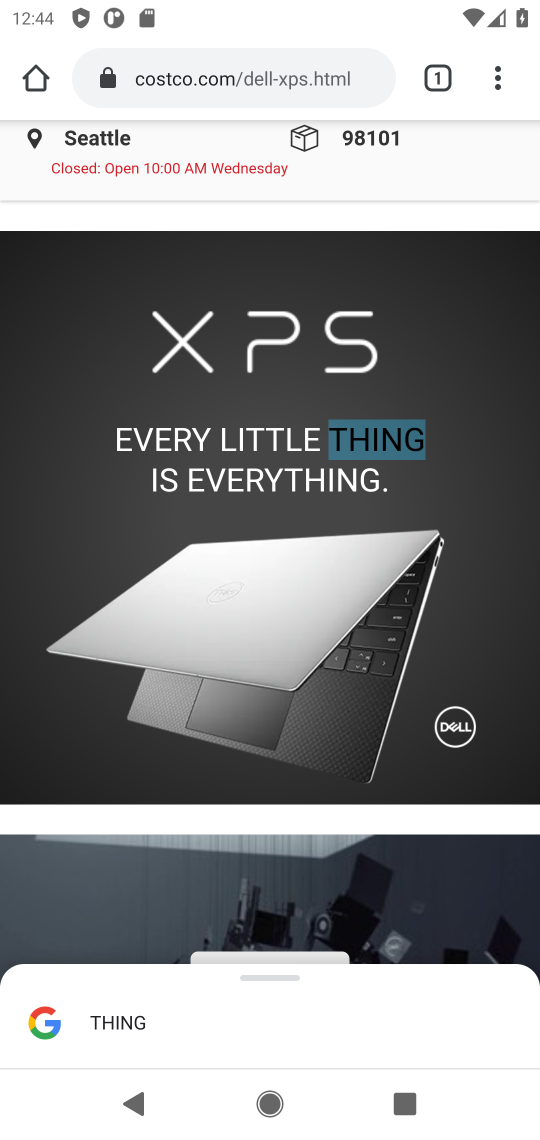
Step 49: click (296, 544)
Your task to perform on an android device: Search for dell xps on costco.com, select the first entry, and add it to the cart. Image 50: 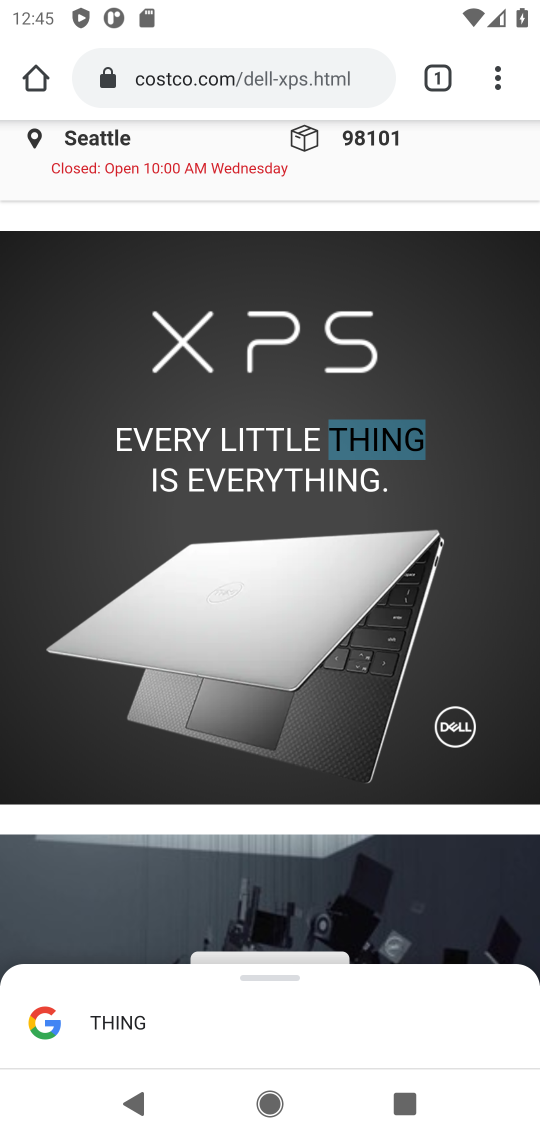
Step 50: click (281, 562)
Your task to perform on an android device: Search for dell xps on costco.com, select the first entry, and add it to the cart. Image 51: 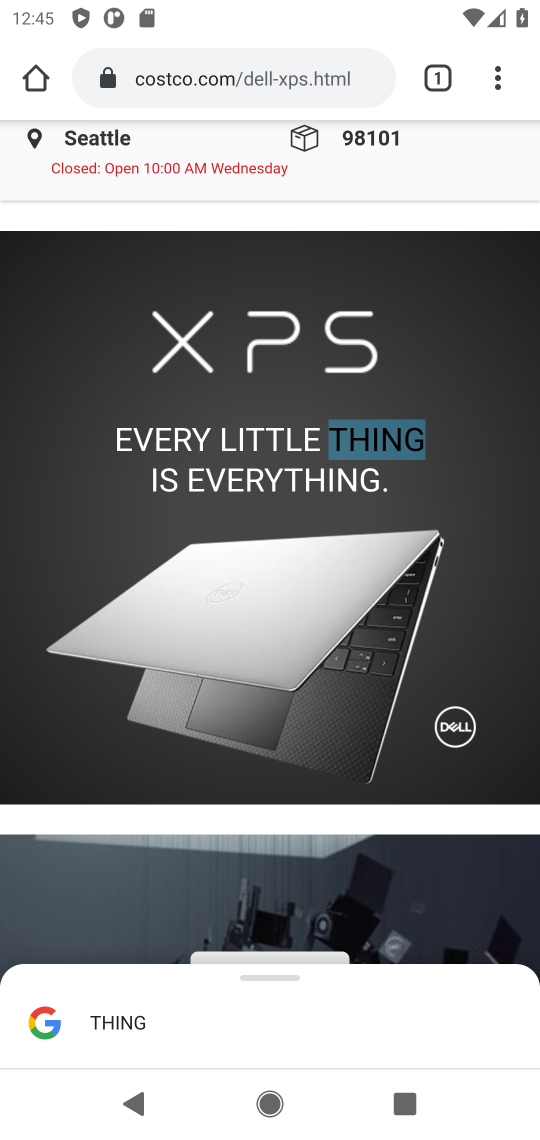
Step 51: click (379, 614)
Your task to perform on an android device: Search for dell xps on costco.com, select the first entry, and add it to the cart. Image 52: 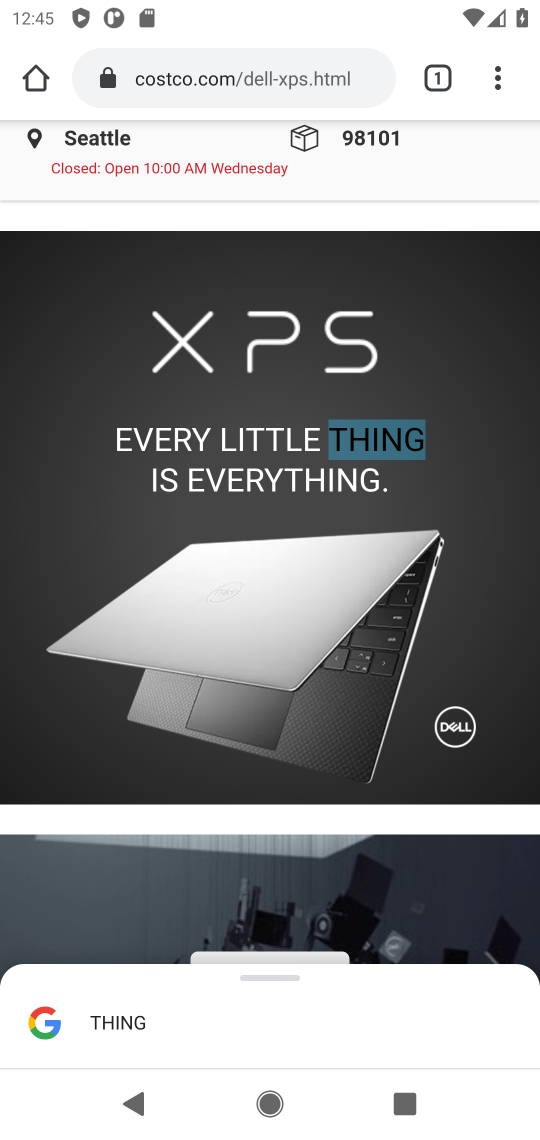
Step 52: drag from (379, 614) to (251, 408)
Your task to perform on an android device: Search for dell xps on costco.com, select the first entry, and add it to the cart. Image 53: 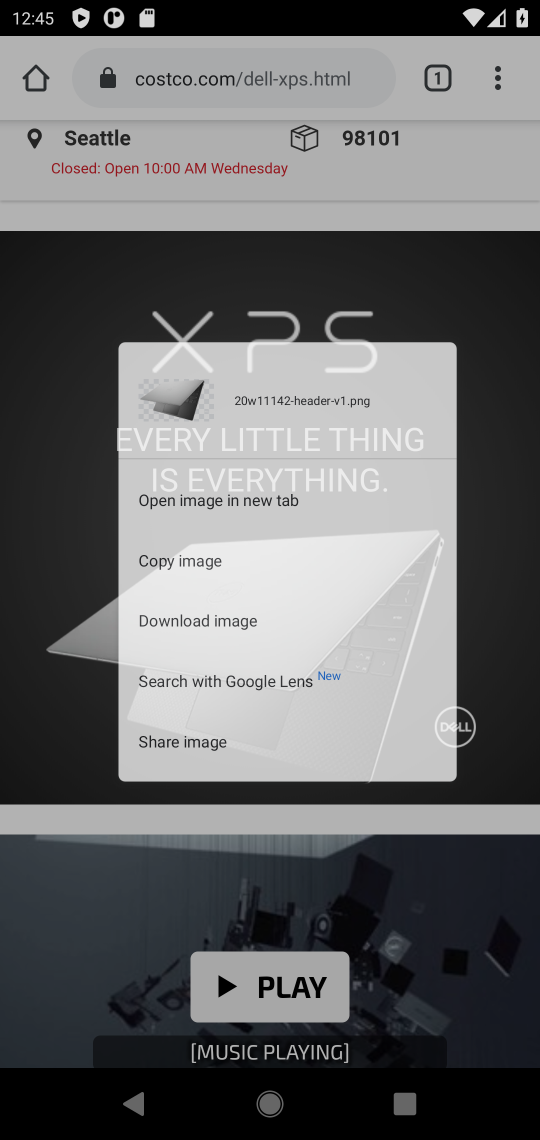
Step 53: click (262, 348)
Your task to perform on an android device: Search for dell xps on costco.com, select the first entry, and add it to the cart. Image 54: 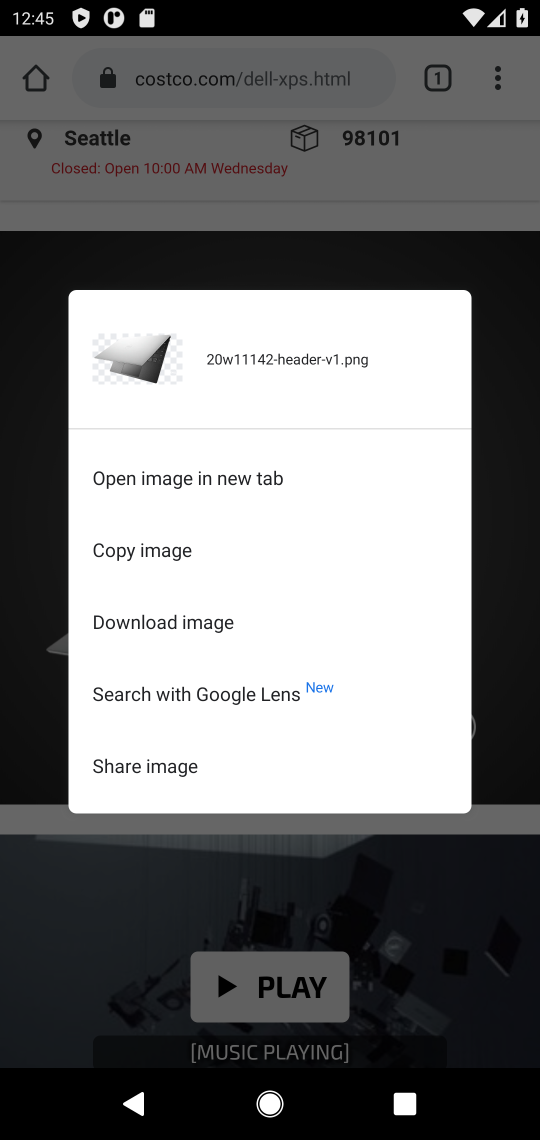
Step 54: click (476, 449)
Your task to perform on an android device: Search for dell xps on costco.com, select the first entry, and add it to the cart. Image 55: 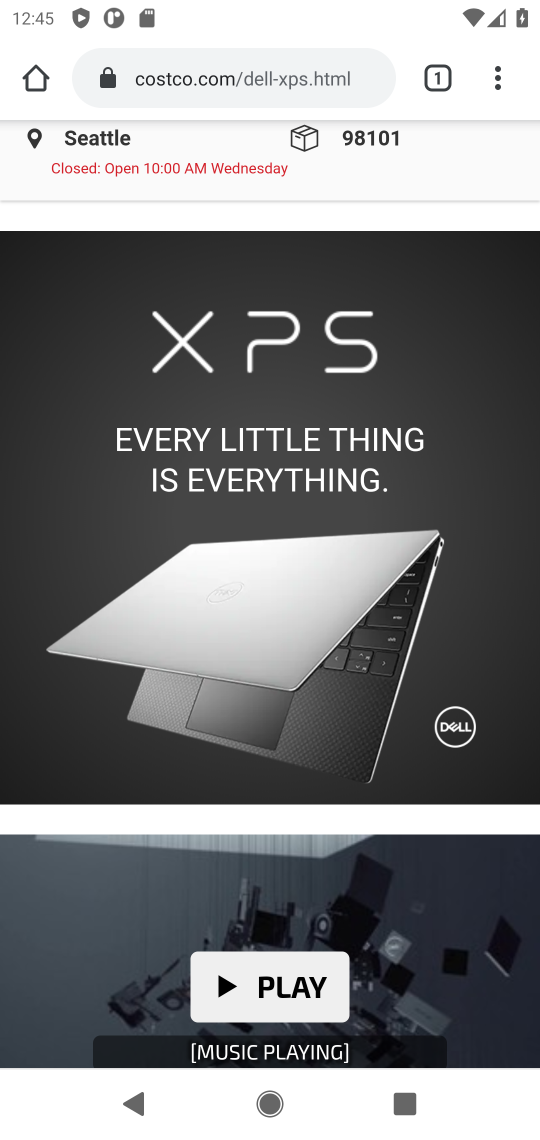
Step 55: drag from (370, 398) to (364, 723)
Your task to perform on an android device: Search for dell xps on costco.com, select the first entry, and add it to the cart. Image 56: 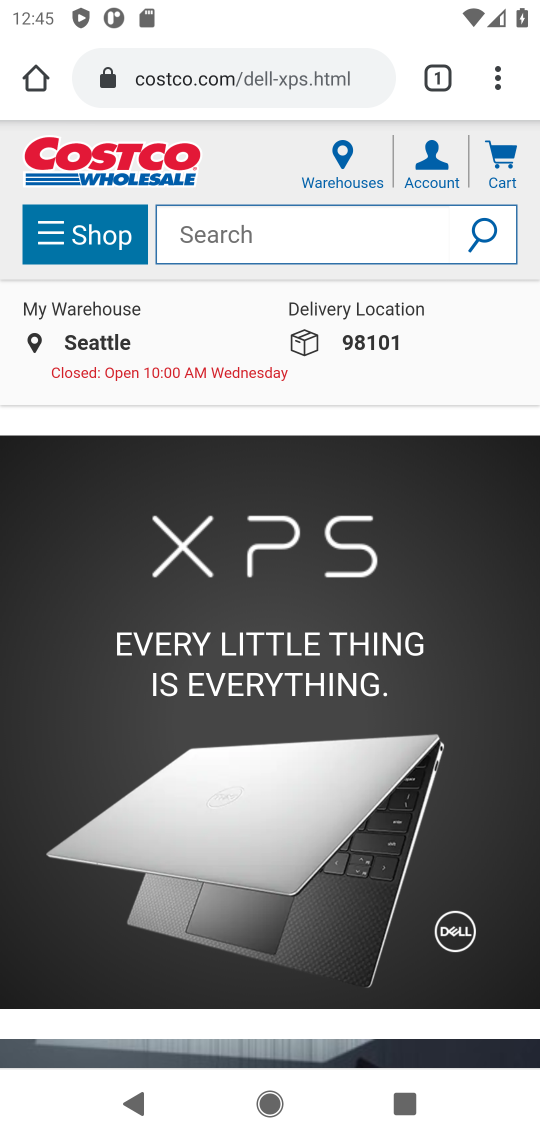
Step 56: click (219, 855)
Your task to perform on an android device: Search for dell xps on costco.com, select the first entry, and add it to the cart. Image 57: 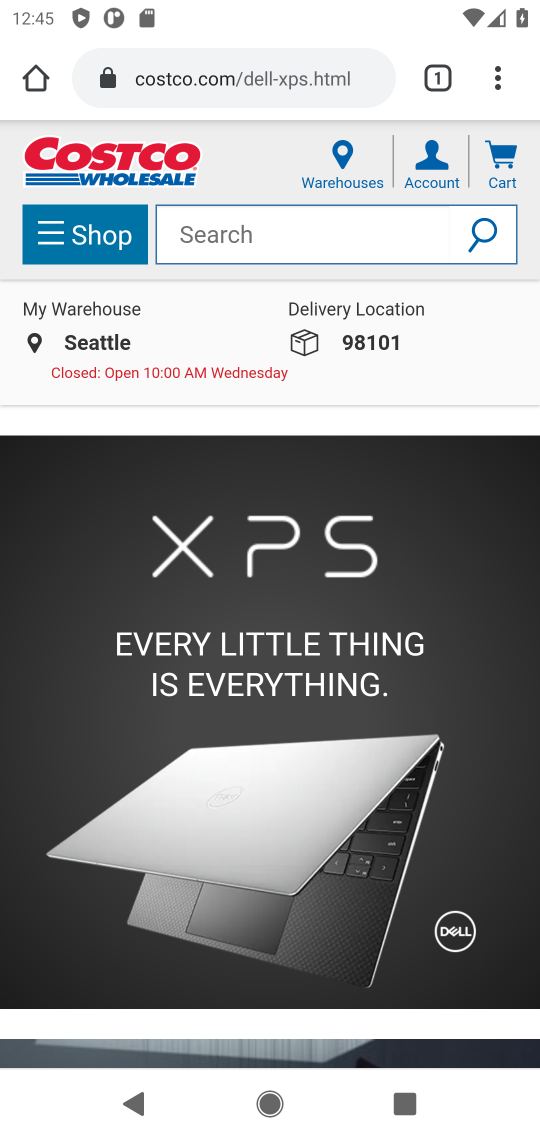
Step 57: drag from (219, 855) to (309, 400)
Your task to perform on an android device: Search for dell xps on costco.com, select the first entry, and add it to the cart. Image 58: 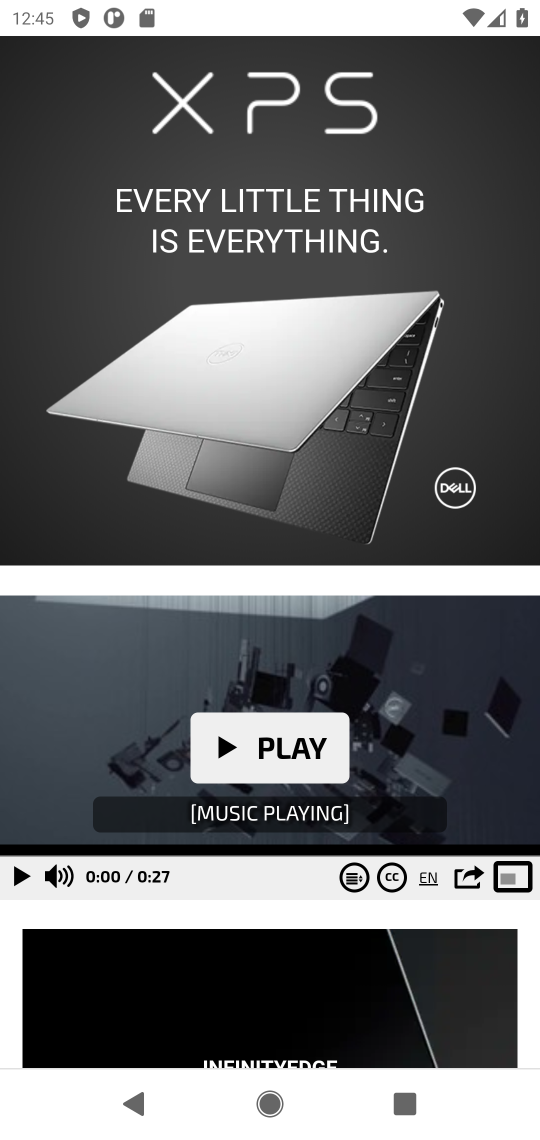
Step 58: drag from (260, 935) to (271, 398)
Your task to perform on an android device: Search for dell xps on costco.com, select the first entry, and add it to the cart. Image 59: 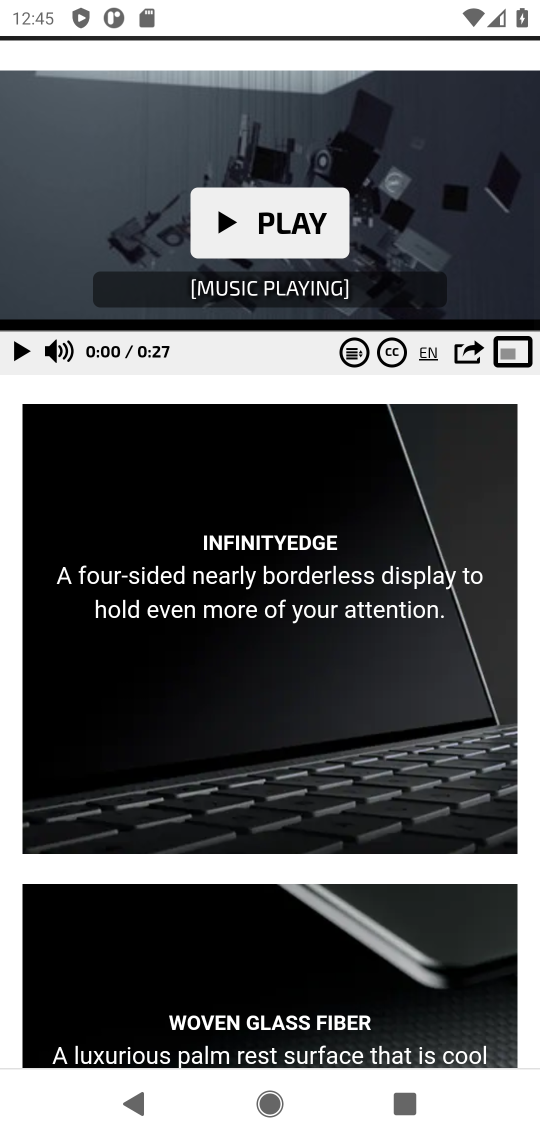
Step 59: drag from (195, 860) to (158, 288)
Your task to perform on an android device: Search for dell xps on costco.com, select the first entry, and add it to the cart. Image 60: 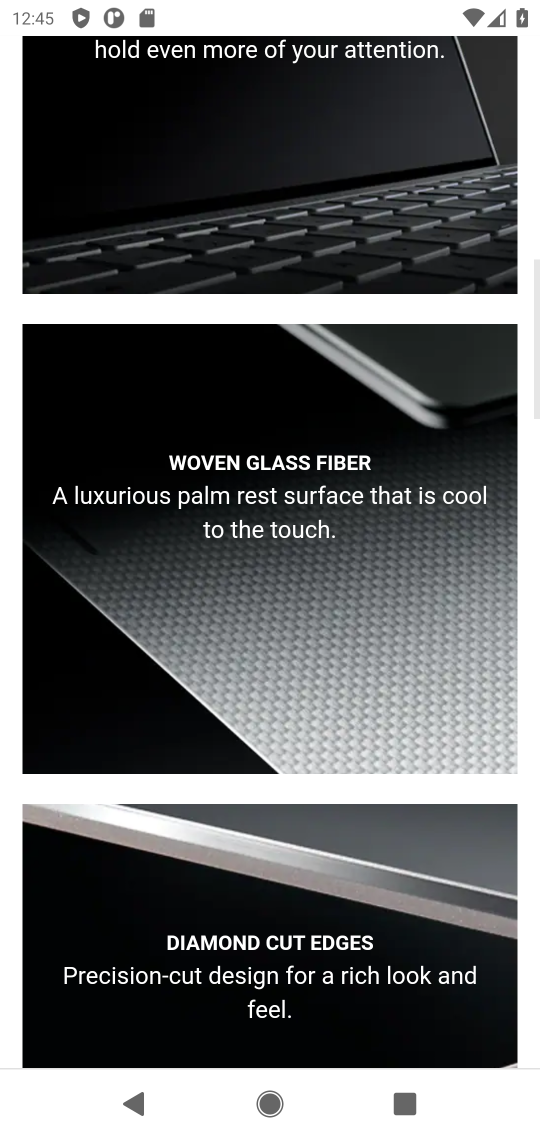
Step 60: drag from (106, 908) to (200, 277)
Your task to perform on an android device: Search for dell xps on costco.com, select the first entry, and add it to the cart. Image 61: 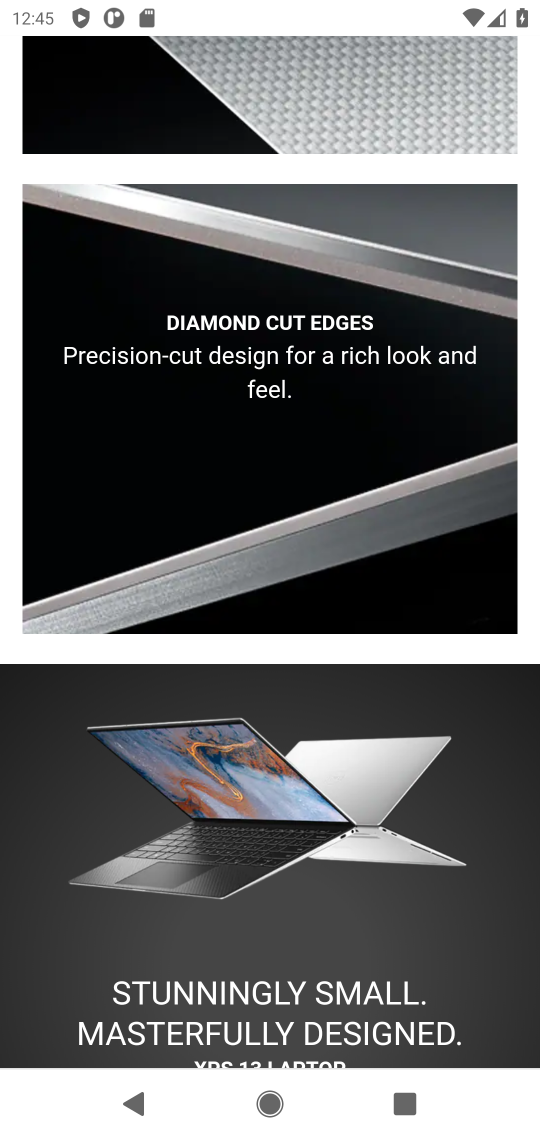
Step 61: drag from (375, 825) to (404, 112)
Your task to perform on an android device: Search for dell xps on costco.com, select the first entry, and add it to the cart. Image 62: 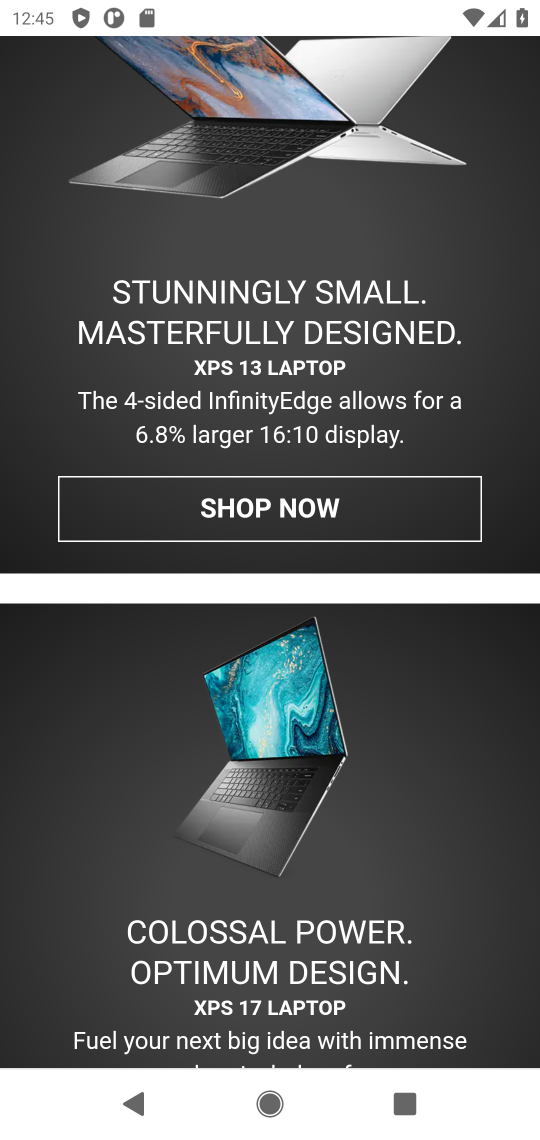
Step 62: click (365, 501)
Your task to perform on an android device: Search for dell xps on costco.com, select the first entry, and add it to the cart. Image 63: 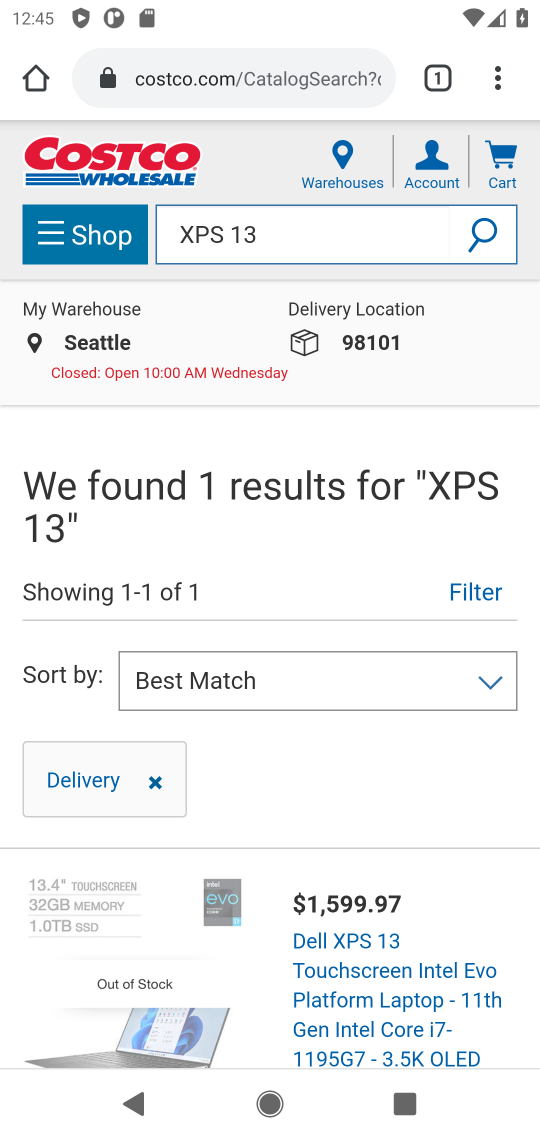
Step 63: task complete